Your task to perform on an android device: Search for hotels in Paris Image 0: 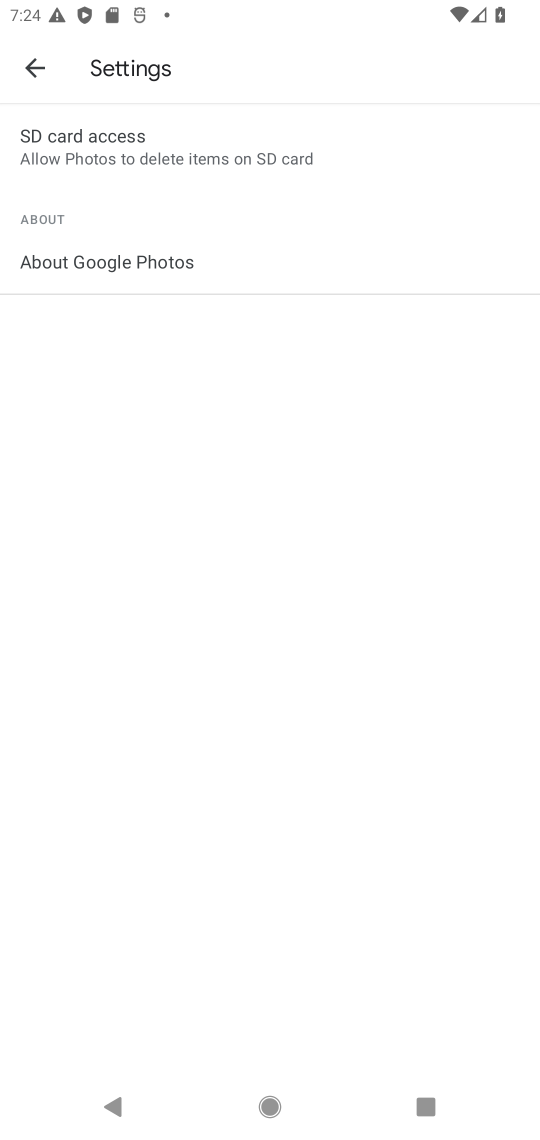
Step 0: press home button
Your task to perform on an android device: Search for hotels in Paris Image 1: 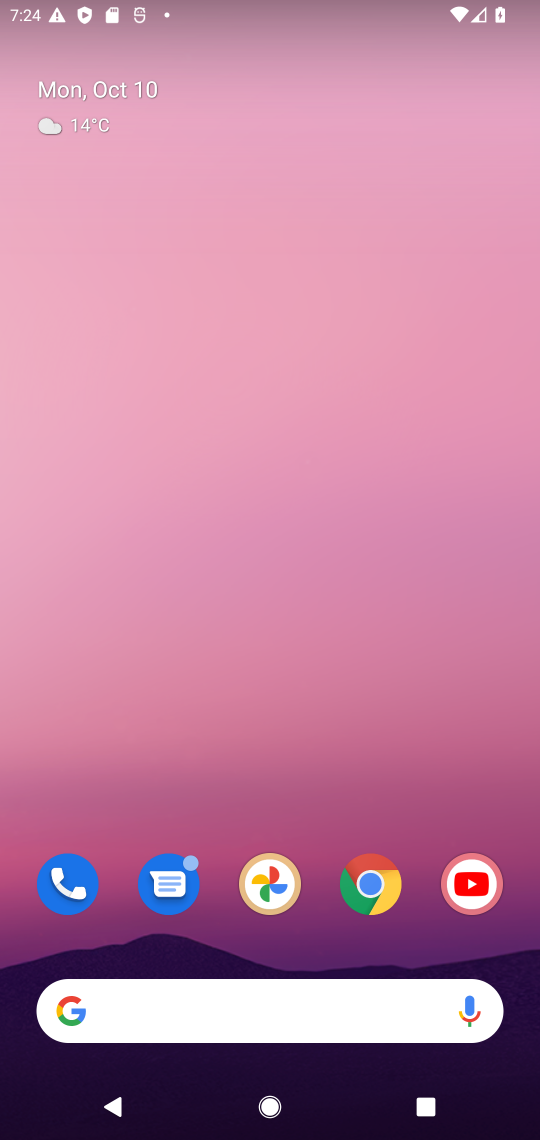
Step 1: click (261, 1006)
Your task to perform on an android device: Search for hotels in Paris Image 2: 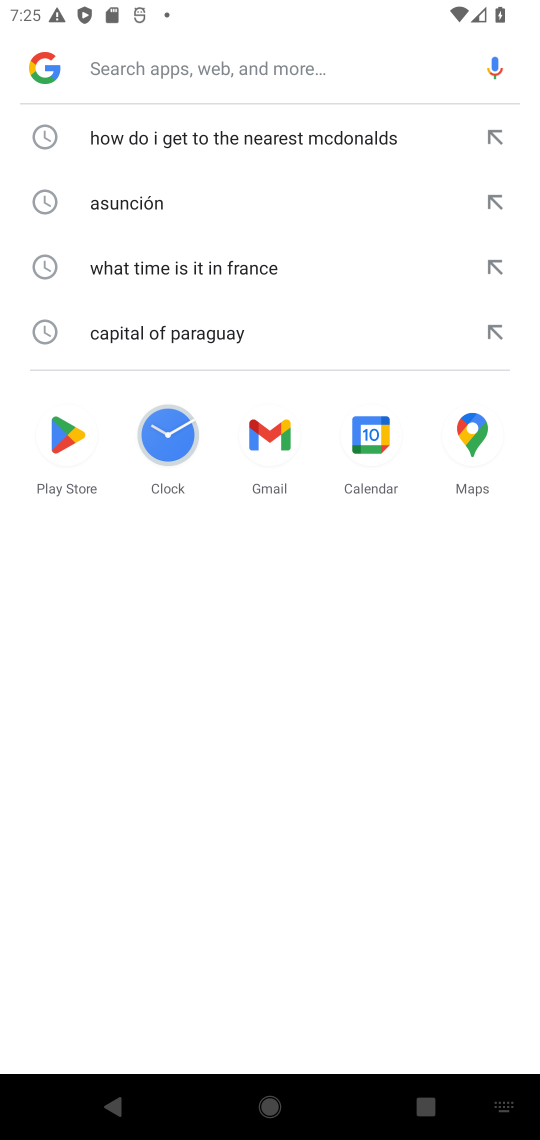
Step 2: type "hotels in paris"
Your task to perform on an android device: Search for hotels in Paris Image 3: 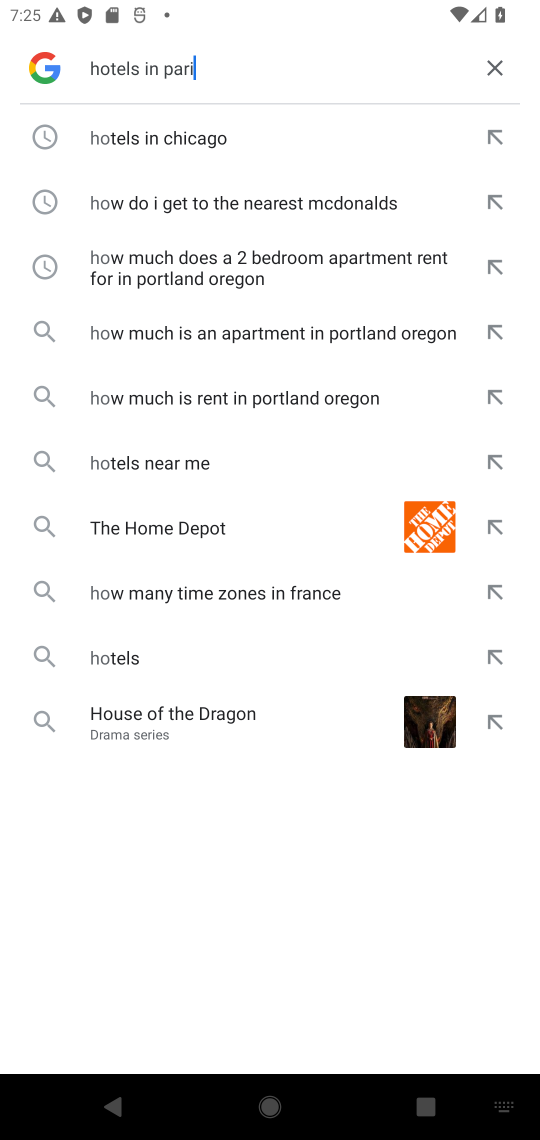
Step 3: type ""
Your task to perform on an android device: Search for hotels in Paris Image 4: 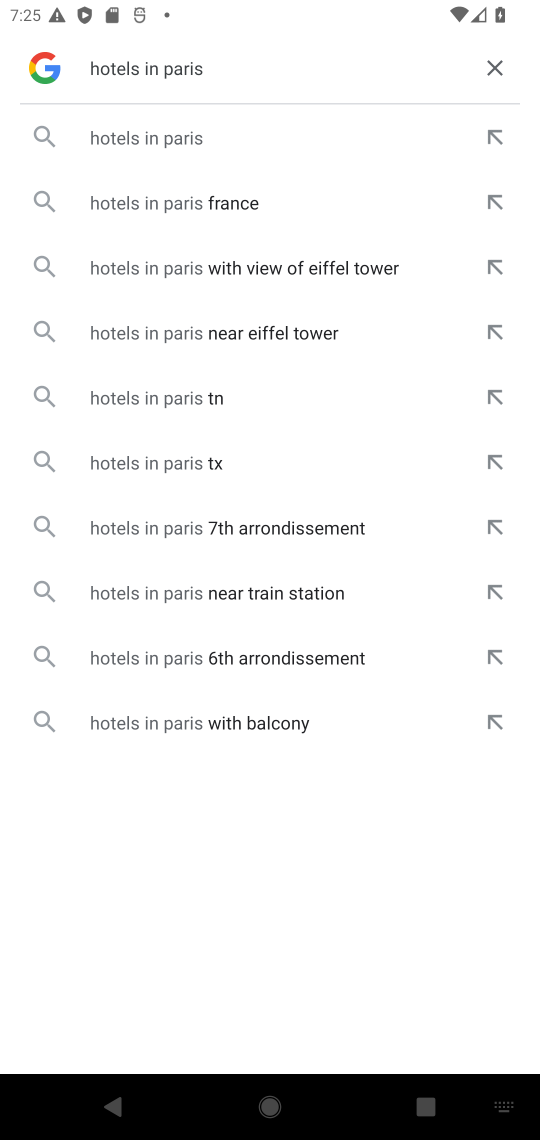
Step 4: click (169, 145)
Your task to perform on an android device: Search for hotels in Paris Image 5: 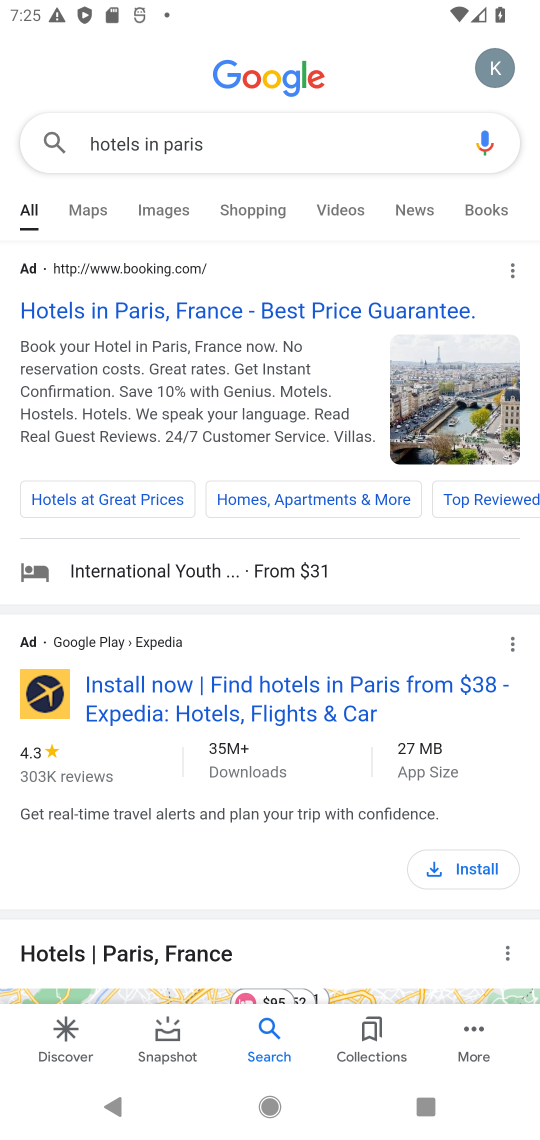
Step 5: drag from (233, 935) to (240, 874)
Your task to perform on an android device: Search for hotels in Paris Image 6: 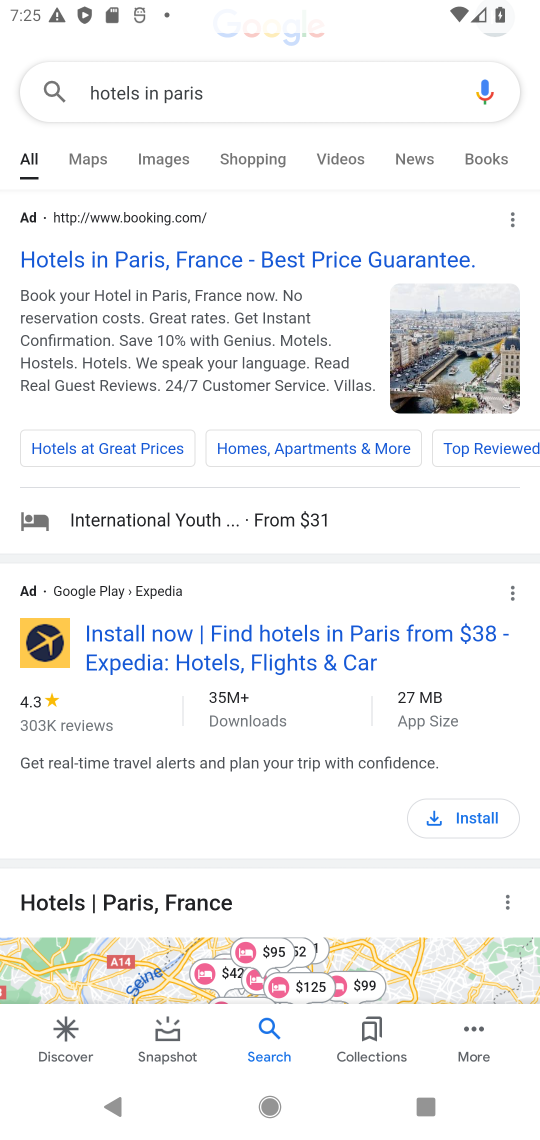
Step 6: click (180, 264)
Your task to perform on an android device: Search for hotels in Paris Image 7: 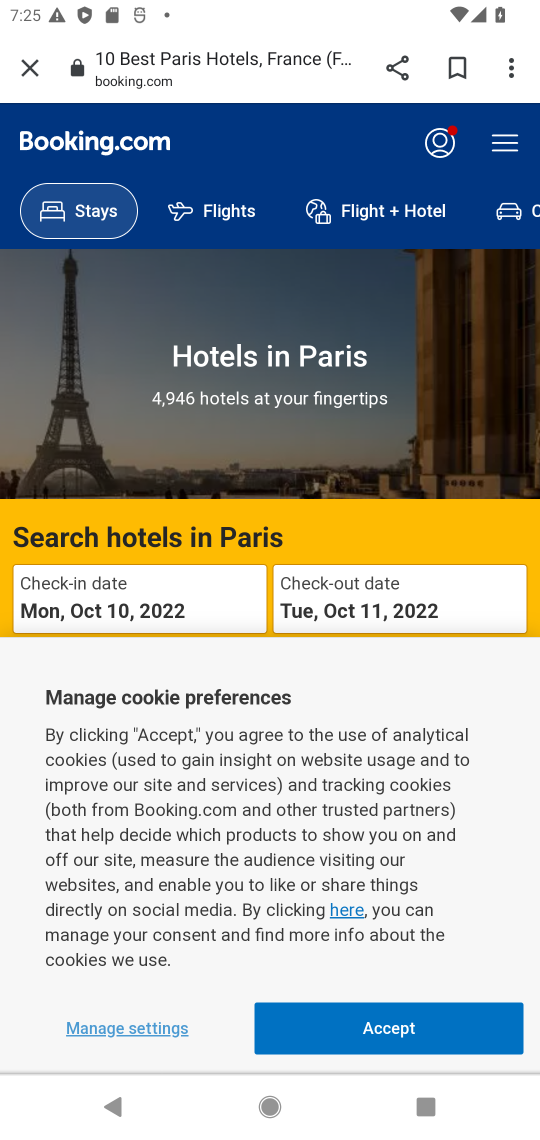
Step 7: click (298, 1038)
Your task to perform on an android device: Search for hotels in Paris Image 8: 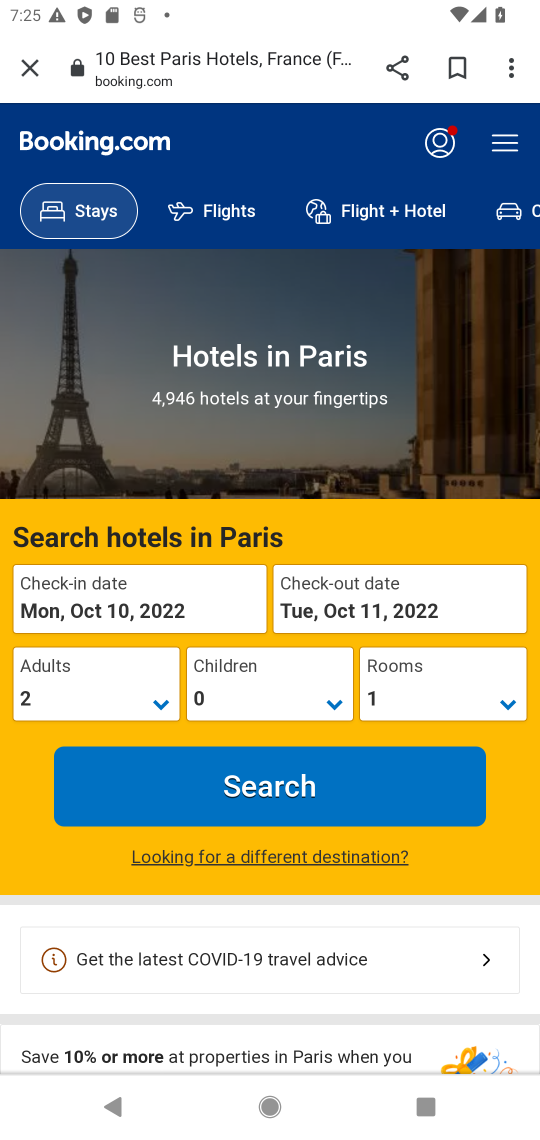
Step 8: drag from (319, 920) to (351, 125)
Your task to perform on an android device: Search for hotels in Paris Image 9: 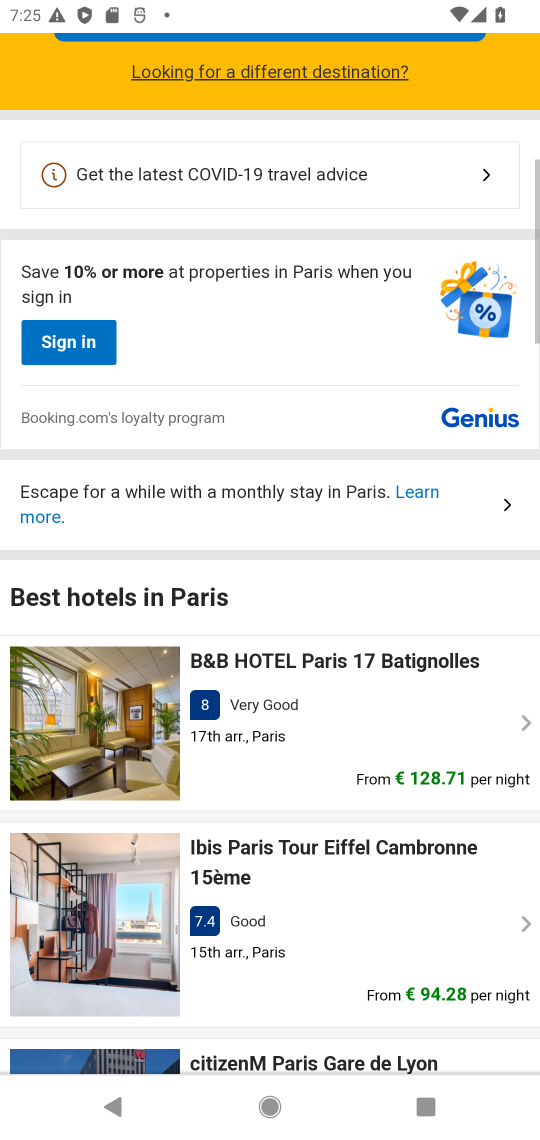
Step 9: drag from (356, 557) to (408, 126)
Your task to perform on an android device: Search for hotels in Paris Image 10: 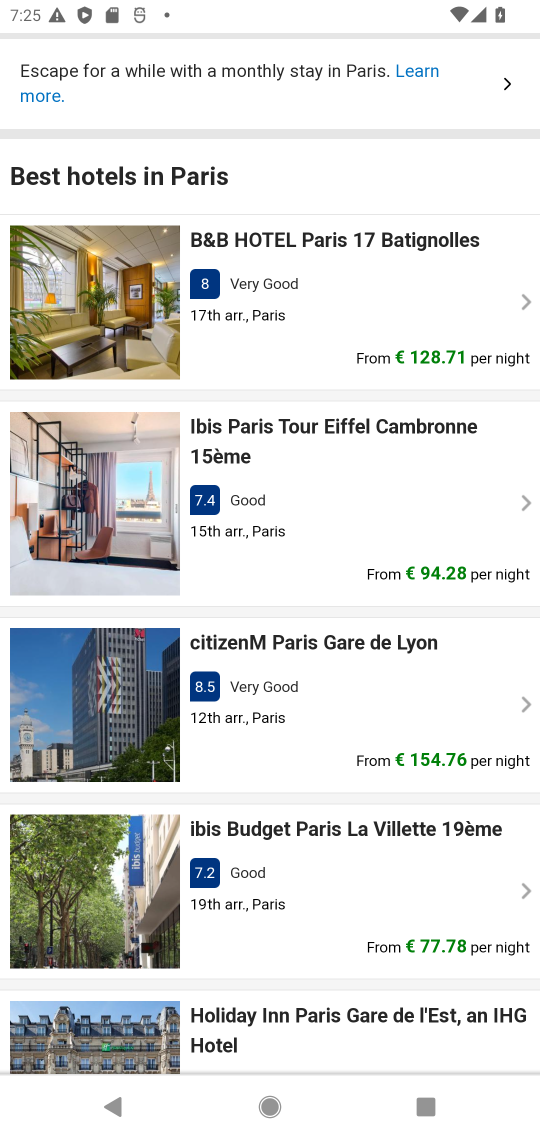
Step 10: drag from (408, 858) to (404, 178)
Your task to perform on an android device: Search for hotels in Paris Image 11: 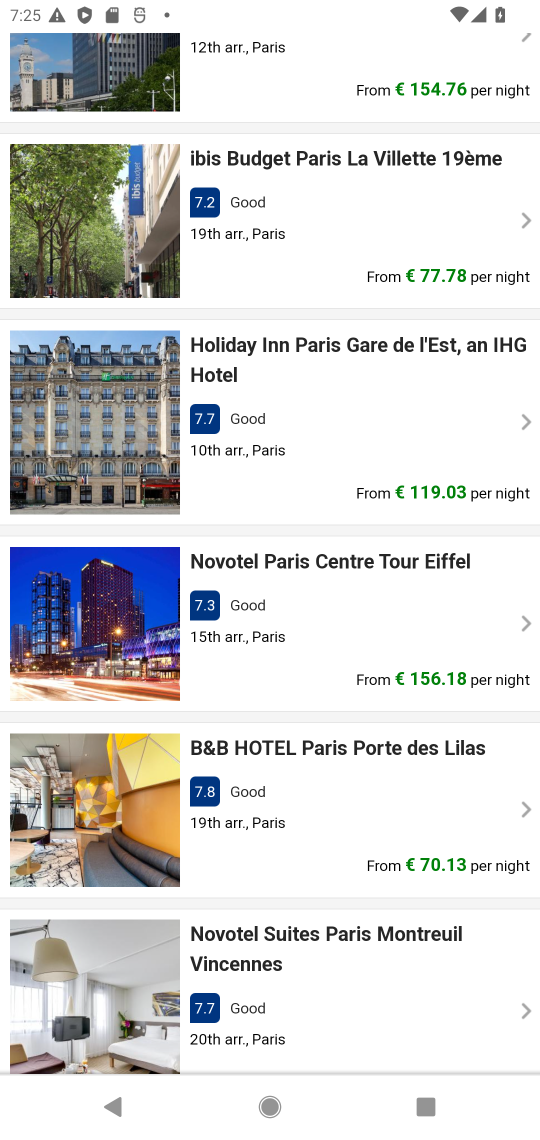
Step 11: drag from (307, 735) to (284, 196)
Your task to perform on an android device: Search for hotels in Paris Image 12: 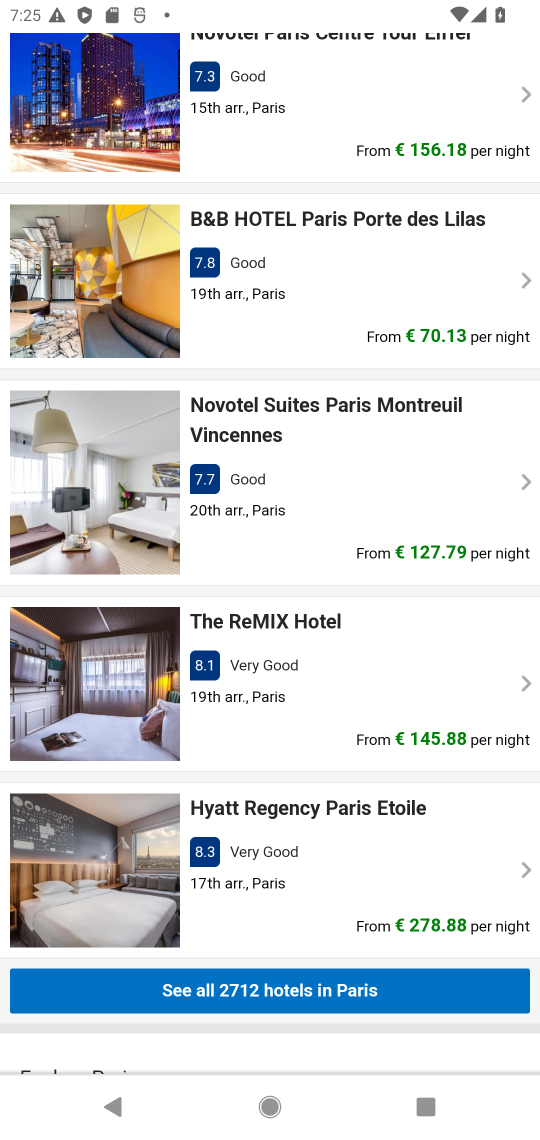
Step 12: drag from (318, 798) to (325, 250)
Your task to perform on an android device: Search for hotels in Paris Image 13: 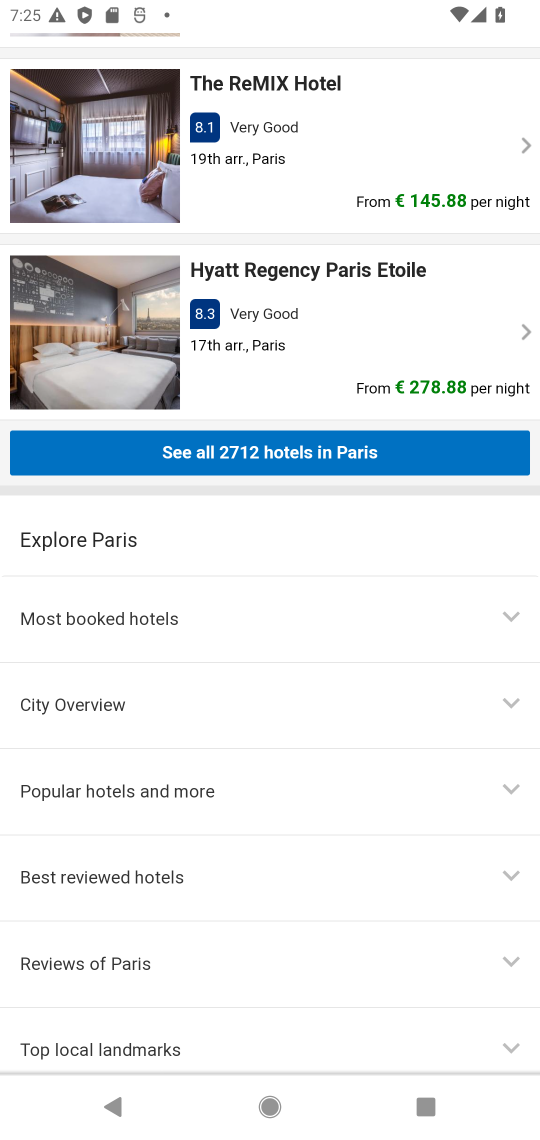
Step 13: drag from (393, 748) to (412, 193)
Your task to perform on an android device: Search for hotels in Paris Image 14: 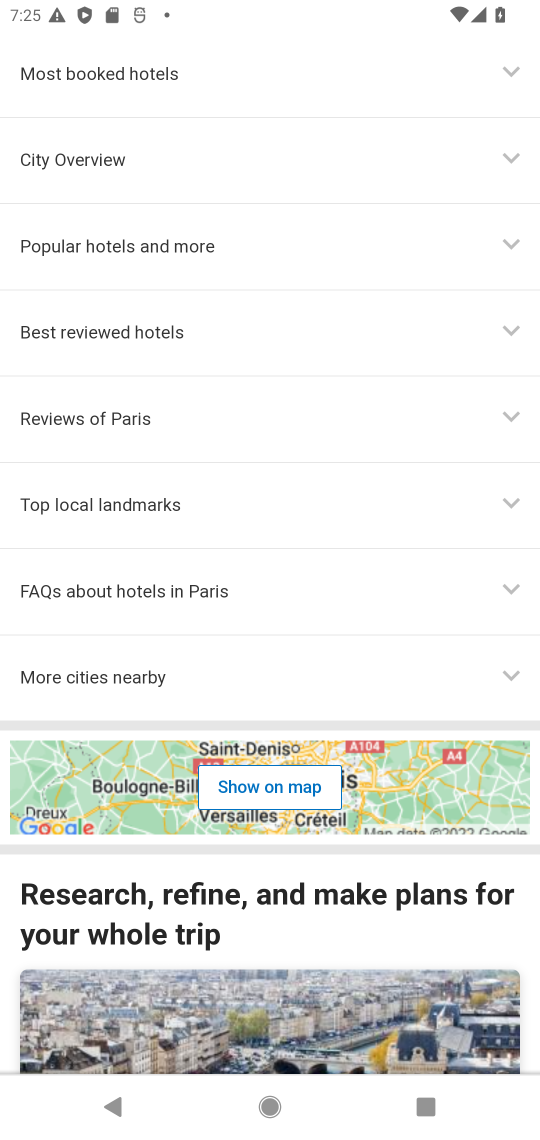
Step 14: drag from (327, 776) to (295, 123)
Your task to perform on an android device: Search for hotels in Paris Image 15: 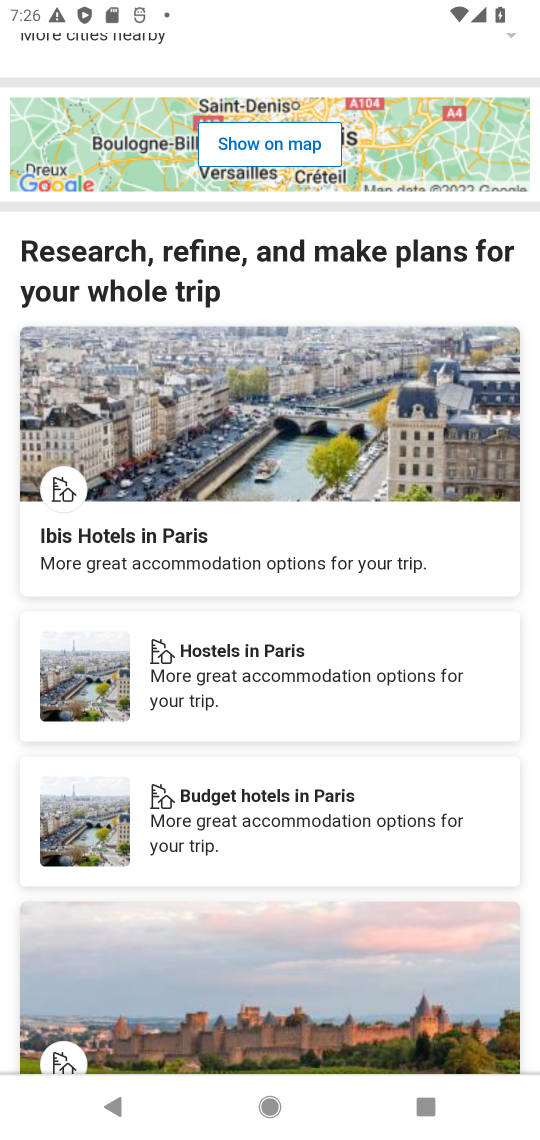
Step 15: drag from (362, 658) to (342, 164)
Your task to perform on an android device: Search for hotels in Paris Image 16: 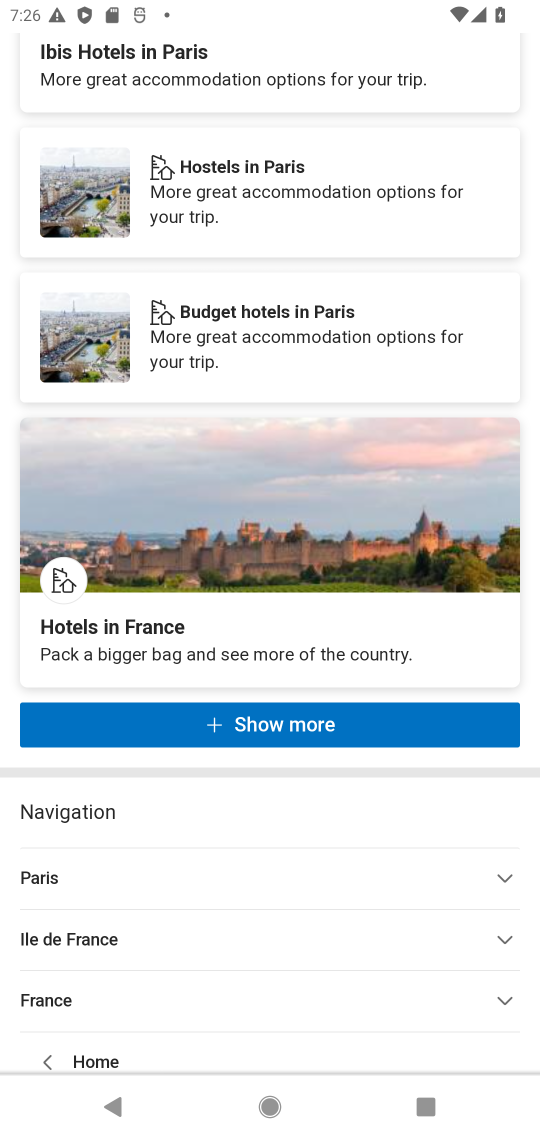
Step 16: click (283, 214)
Your task to perform on an android device: Search for hotels in Paris Image 17: 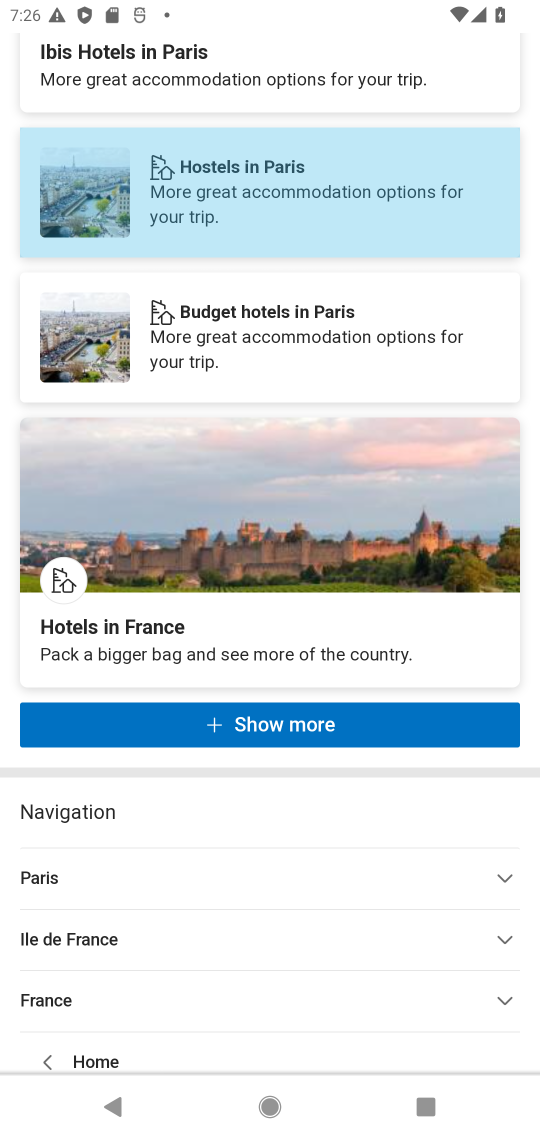
Step 17: drag from (321, 711) to (297, 180)
Your task to perform on an android device: Search for hotels in Paris Image 18: 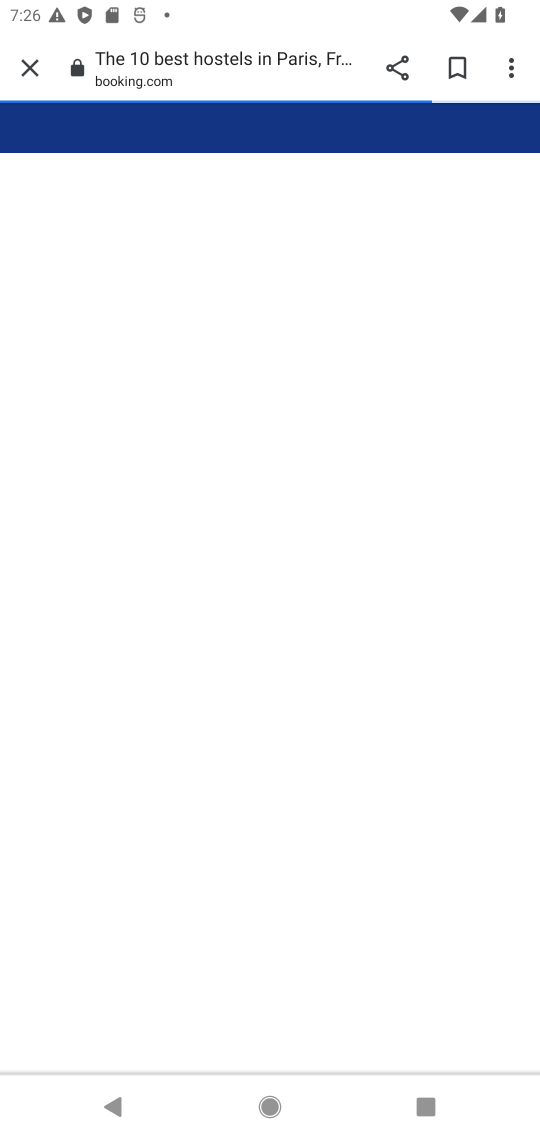
Step 18: drag from (296, 171) to (295, 611)
Your task to perform on an android device: Search for hotels in Paris Image 19: 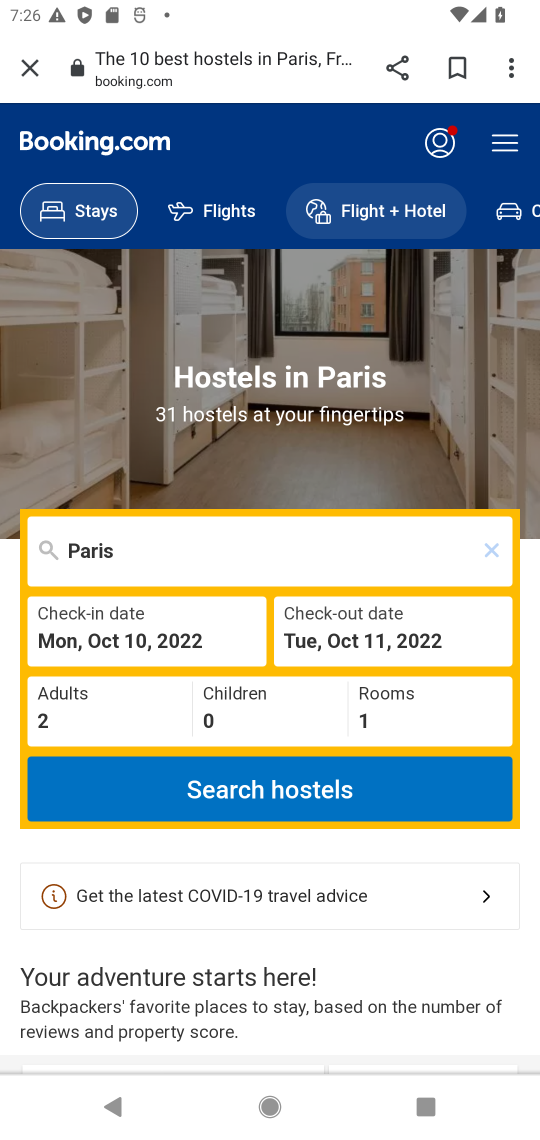
Step 19: press back button
Your task to perform on an android device: Search for hotels in Paris Image 20: 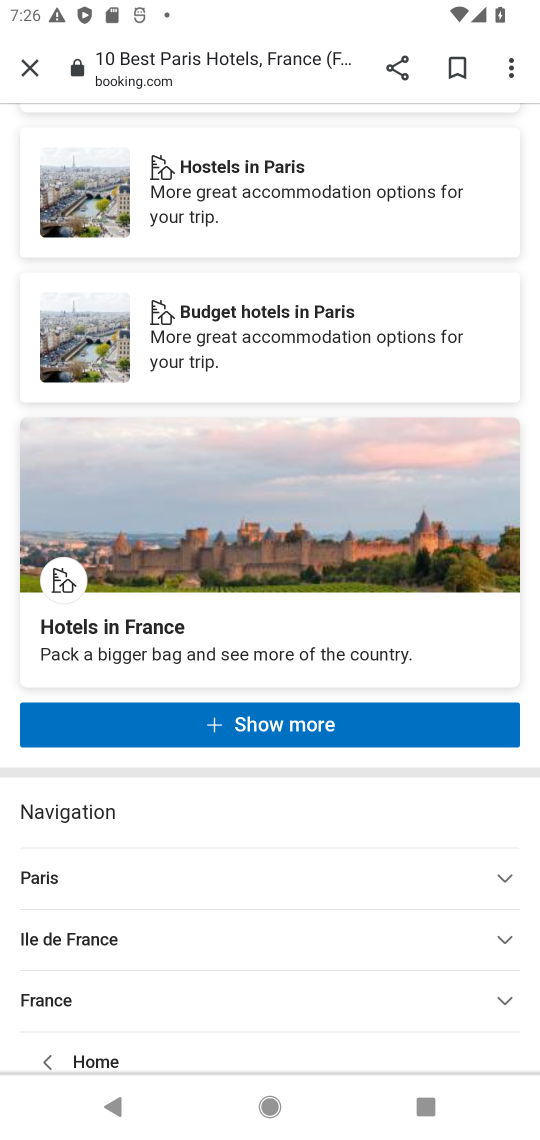
Step 20: press back button
Your task to perform on an android device: Search for hotels in Paris Image 21: 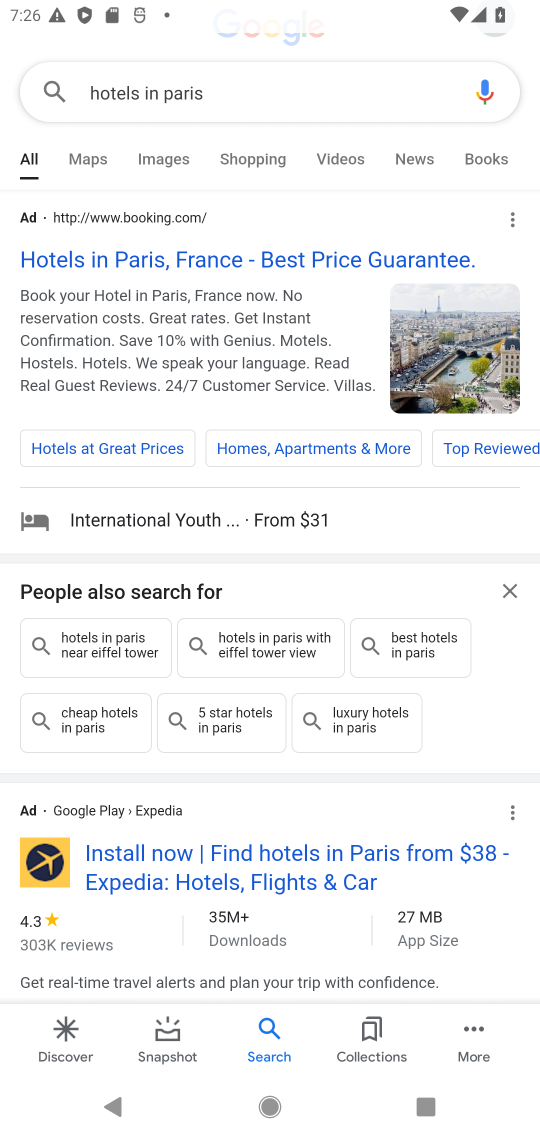
Step 21: click (242, 263)
Your task to perform on an android device: Search for hotels in Paris Image 22: 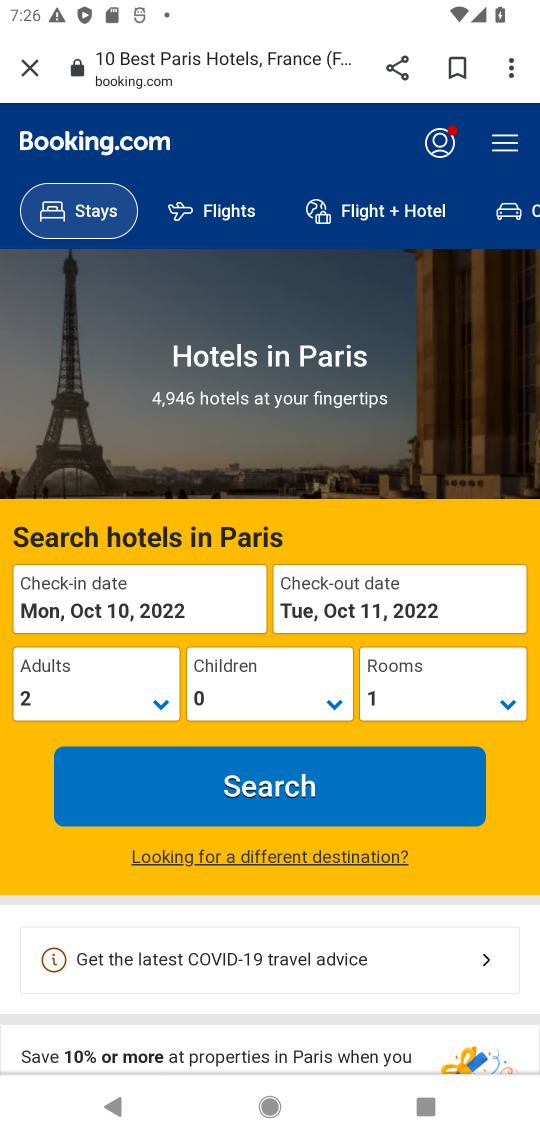
Step 22: drag from (294, 728) to (318, 224)
Your task to perform on an android device: Search for hotels in Paris Image 23: 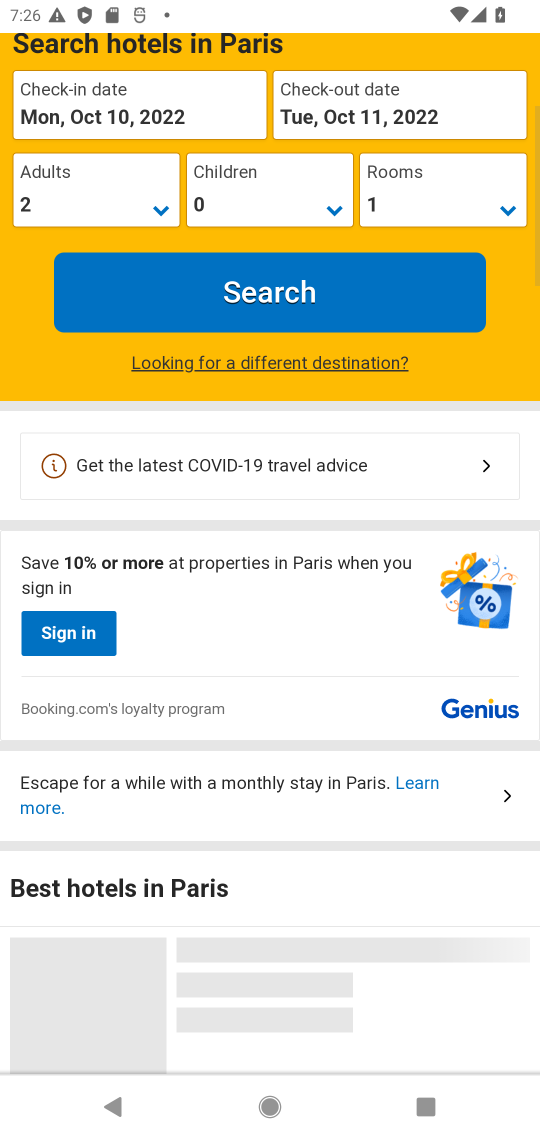
Step 23: drag from (359, 713) to (304, 157)
Your task to perform on an android device: Search for hotels in Paris Image 24: 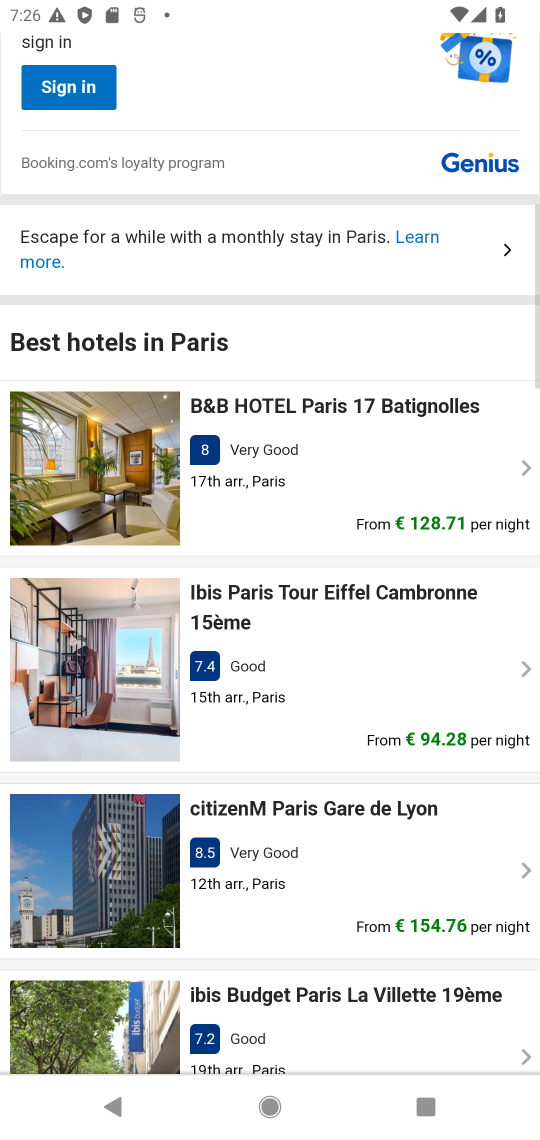
Step 24: drag from (308, 849) to (323, 115)
Your task to perform on an android device: Search for hotels in Paris Image 25: 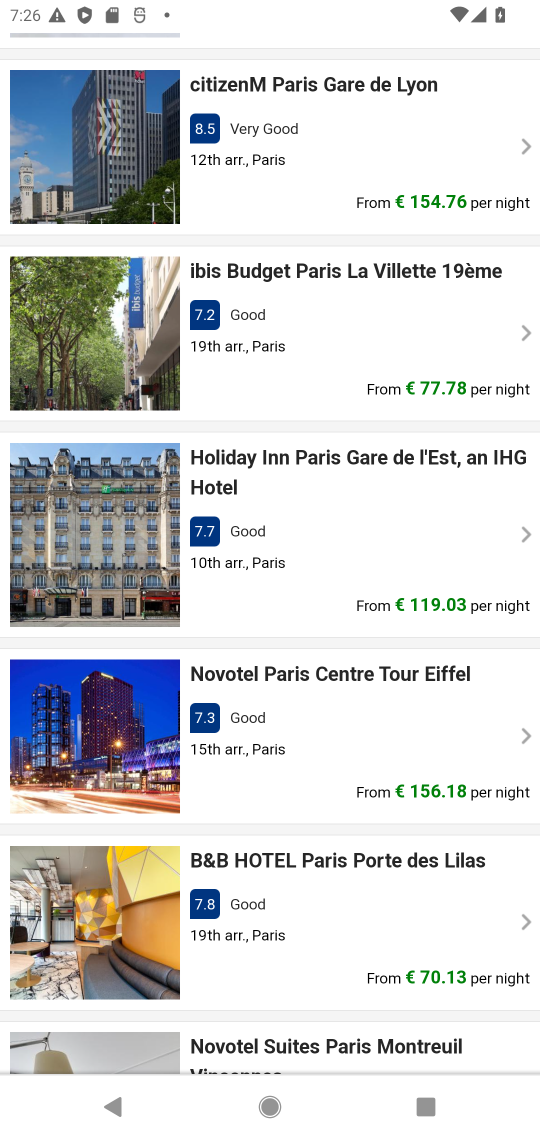
Step 25: drag from (349, 1026) to (346, 66)
Your task to perform on an android device: Search for hotels in Paris Image 26: 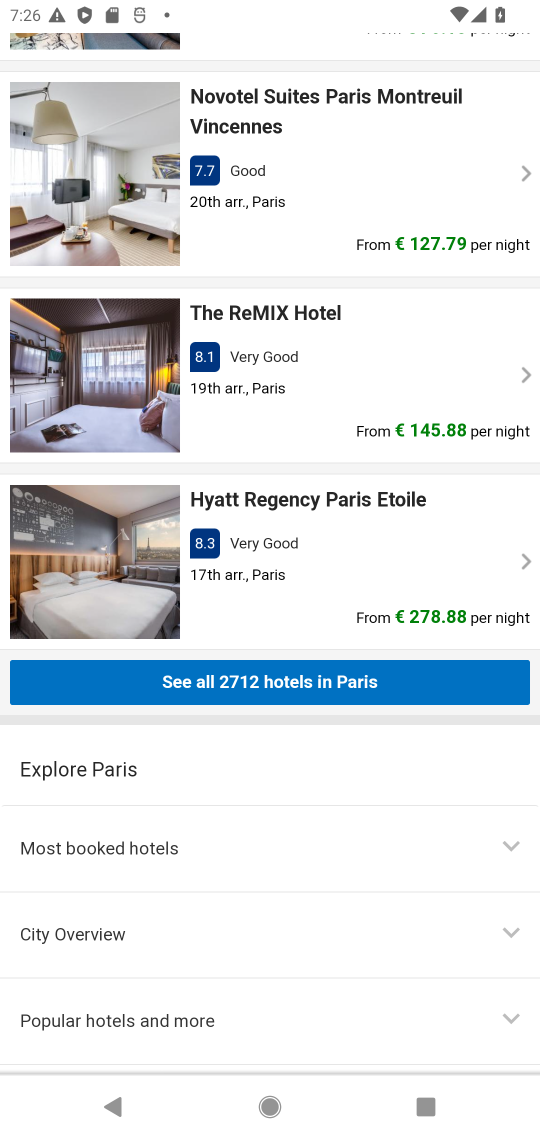
Step 26: drag from (385, 850) to (404, 98)
Your task to perform on an android device: Search for hotels in Paris Image 27: 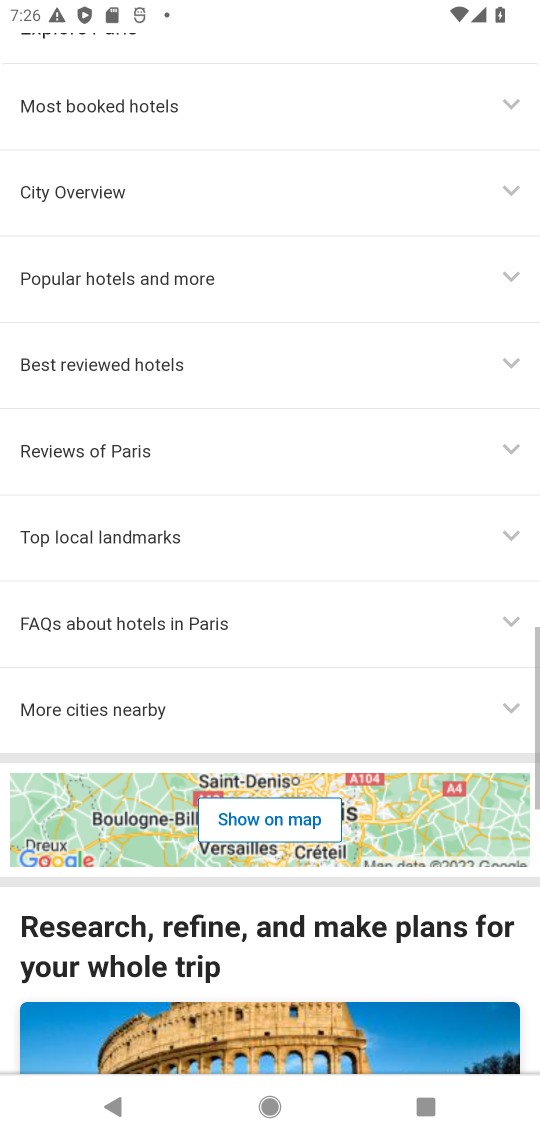
Step 27: drag from (423, 882) to (375, 110)
Your task to perform on an android device: Search for hotels in Paris Image 28: 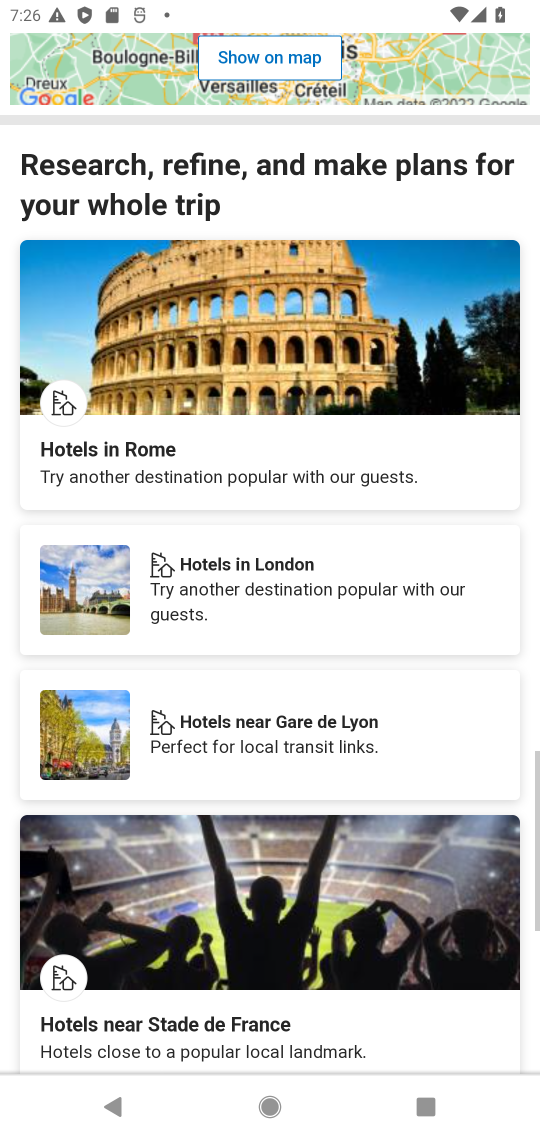
Step 28: drag from (346, 920) to (313, 110)
Your task to perform on an android device: Search for hotels in Paris Image 29: 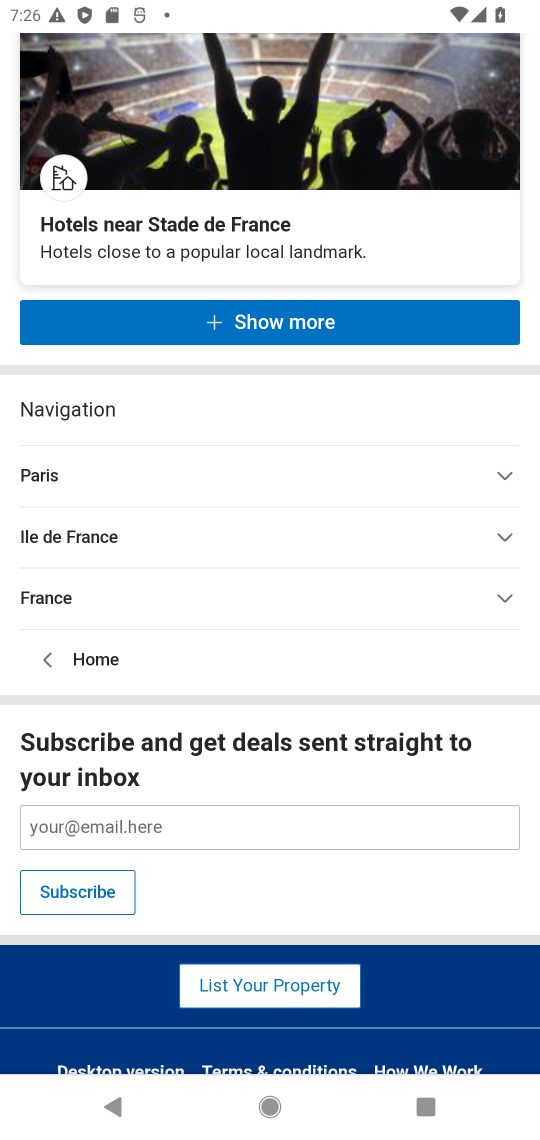
Step 29: drag from (361, 794) to (354, 85)
Your task to perform on an android device: Search for hotels in Paris Image 30: 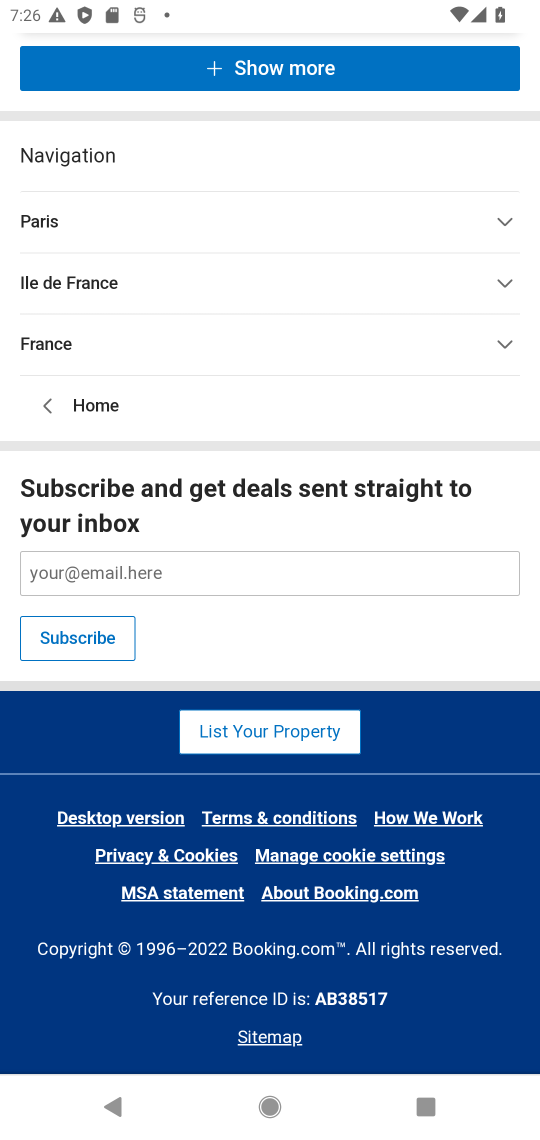
Step 30: drag from (319, 757) to (244, 70)
Your task to perform on an android device: Search for hotels in Paris Image 31: 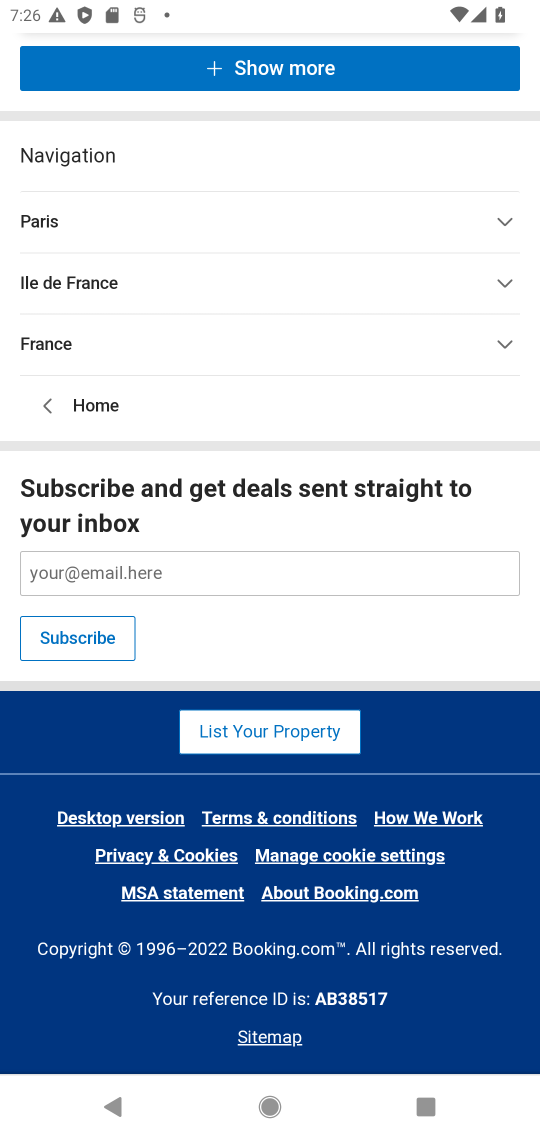
Step 31: drag from (297, 829) to (322, 342)
Your task to perform on an android device: Search for hotels in Paris Image 32: 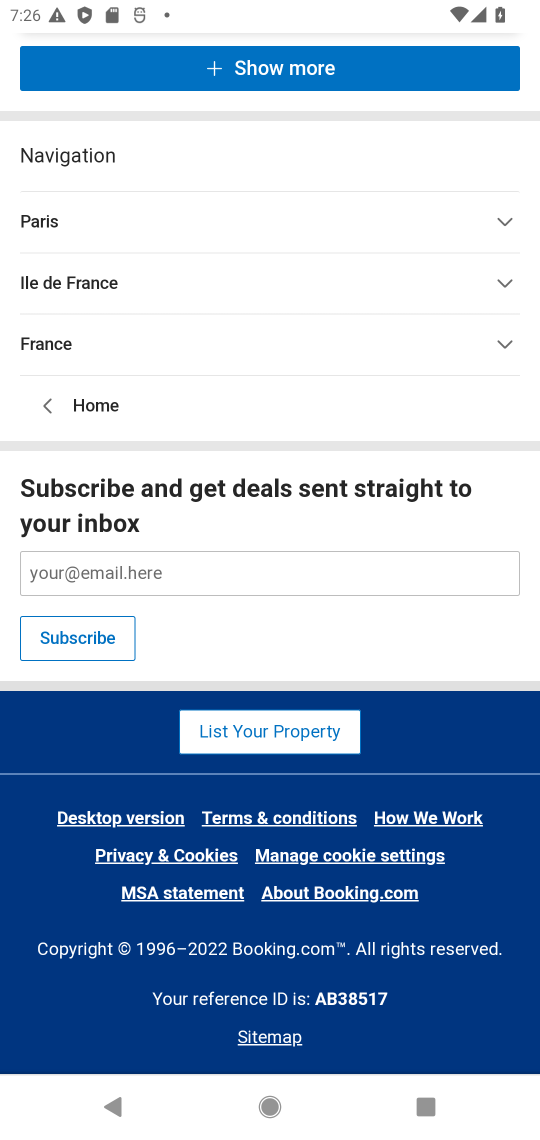
Step 32: drag from (445, 755) to (429, 374)
Your task to perform on an android device: Search for hotels in Paris Image 33: 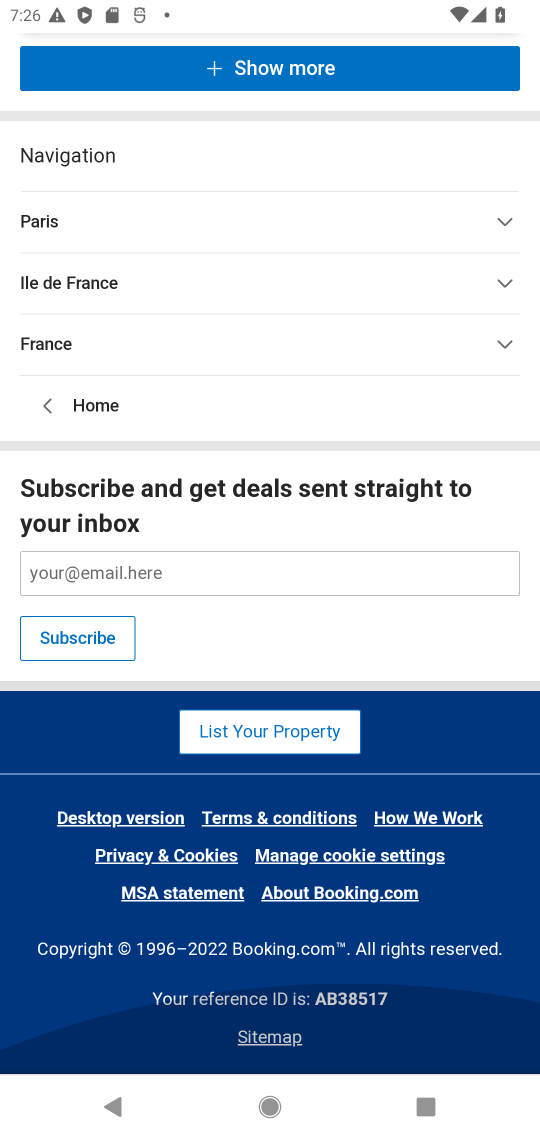
Step 33: drag from (362, 257) to (359, 744)
Your task to perform on an android device: Search for hotels in Paris Image 34: 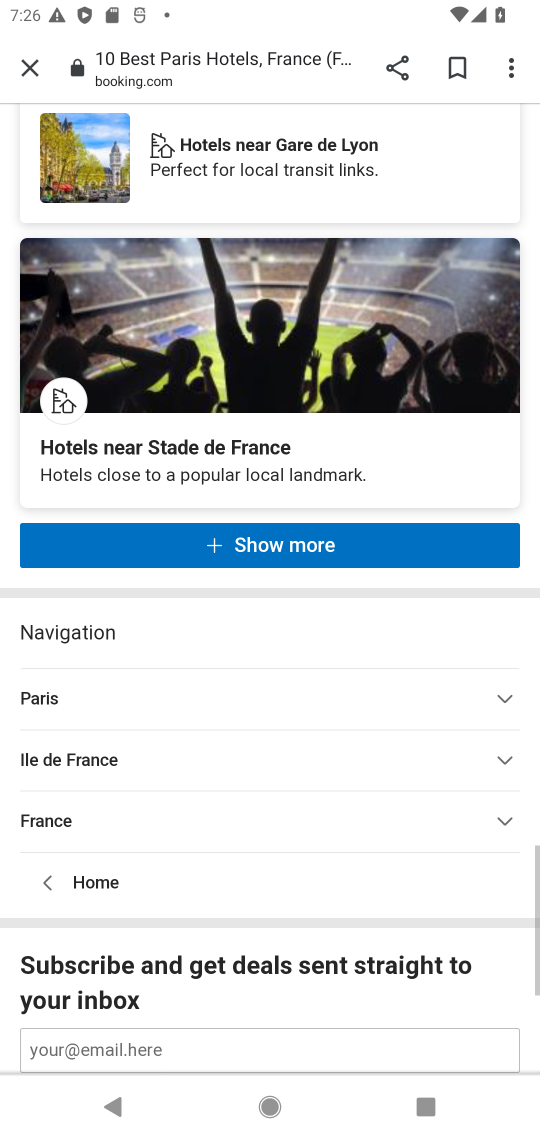
Step 34: drag from (350, 246) to (389, 789)
Your task to perform on an android device: Search for hotels in Paris Image 35: 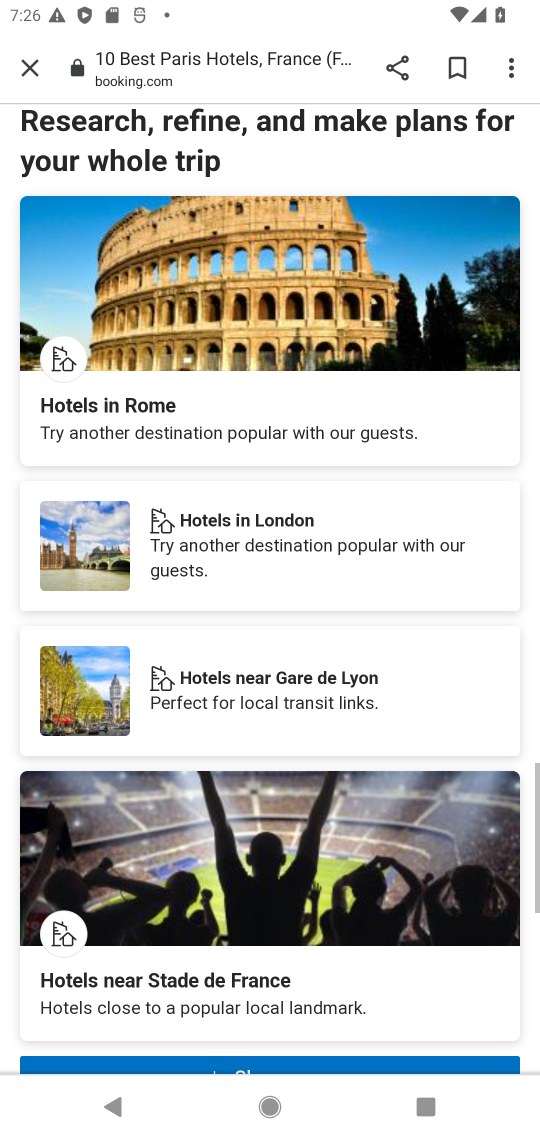
Step 35: drag from (383, 286) to (374, 835)
Your task to perform on an android device: Search for hotels in Paris Image 36: 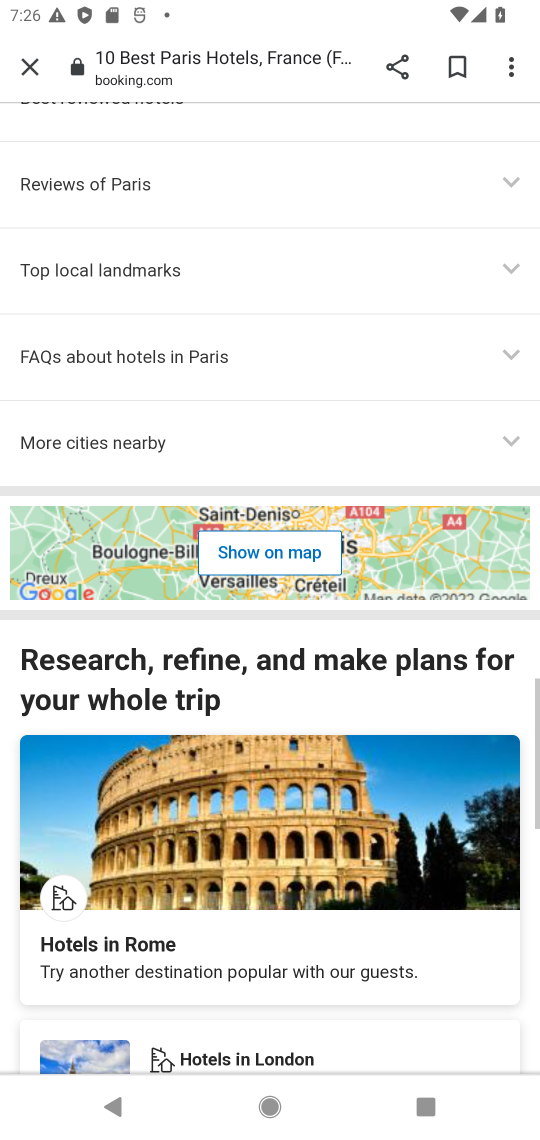
Step 36: drag from (326, 415) to (372, 888)
Your task to perform on an android device: Search for hotels in Paris Image 37: 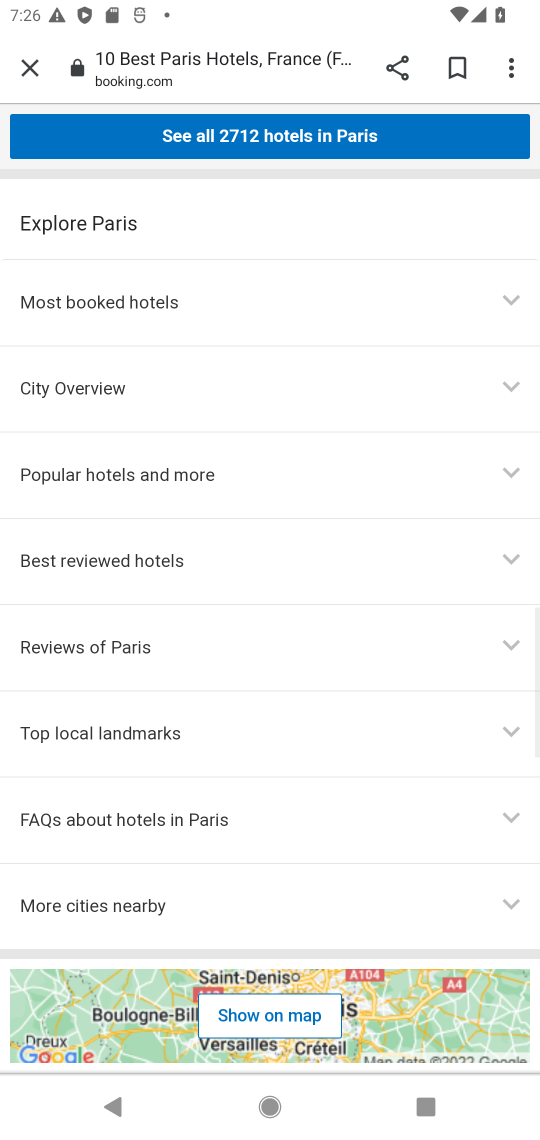
Step 37: drag from (388, 424) to (367, 942)
Your task to perform on an android device: Search for hotels in Paris Image 38: 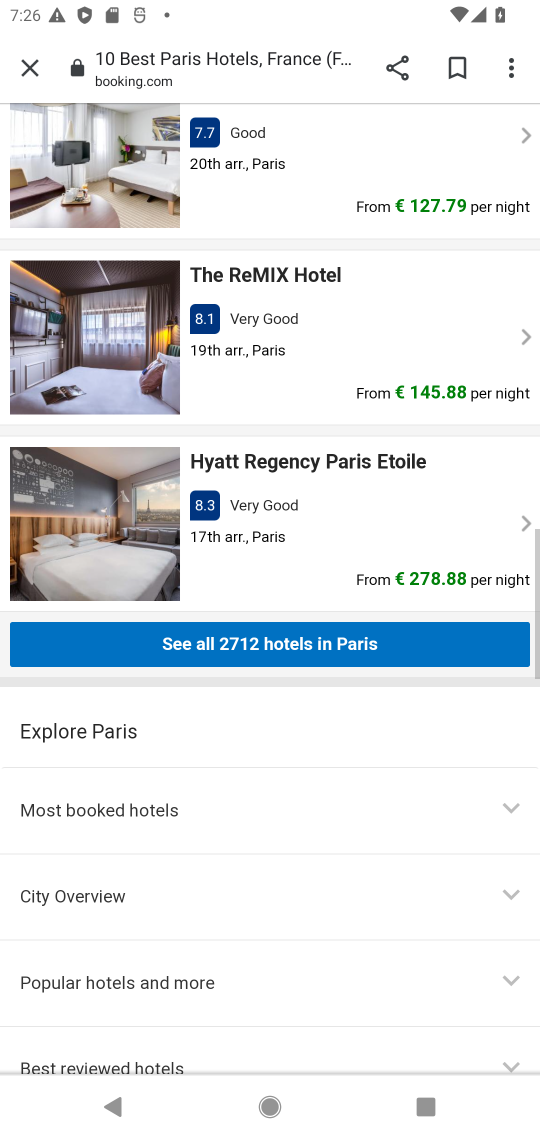
Step 38: drag from (415, 454) to (400, 797)
Your task to perform on an android device: Search for hotels in Paris Image 39: 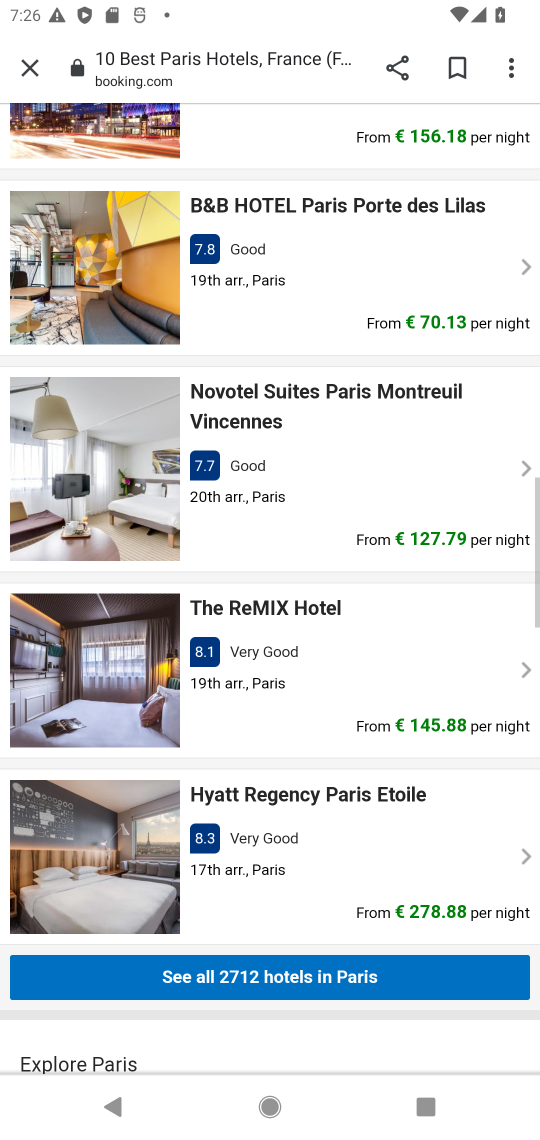
Step 39: drag from (385, 363) to (345, 848)
Your task to perform on an android device: Search for hotels in Paris Image 40: 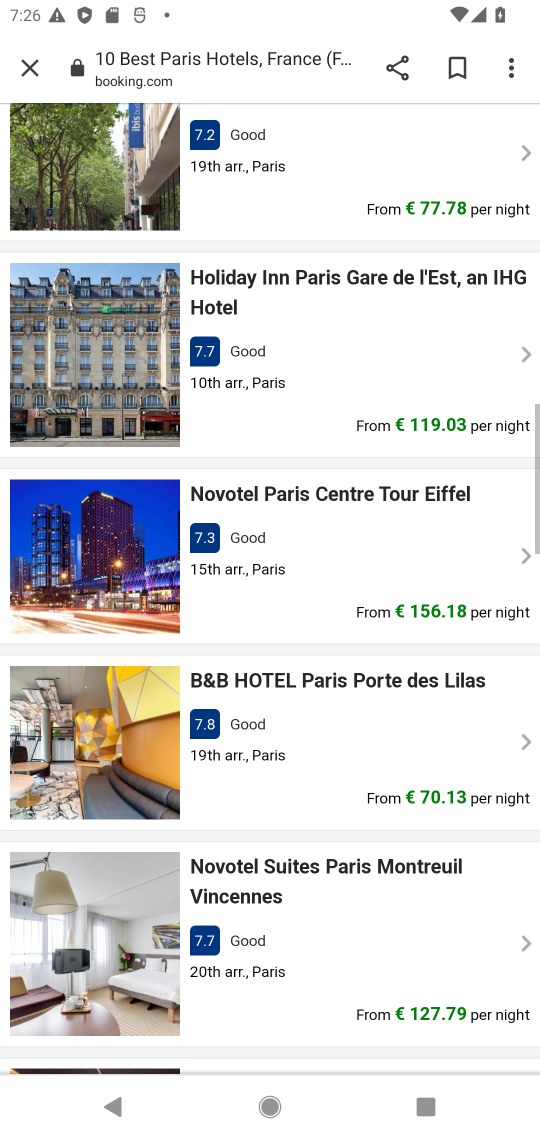
Step 40: drag from (300, 466) to (336, 909)
Your task to perform on an android device: Search for hotels in Paris Image 41: 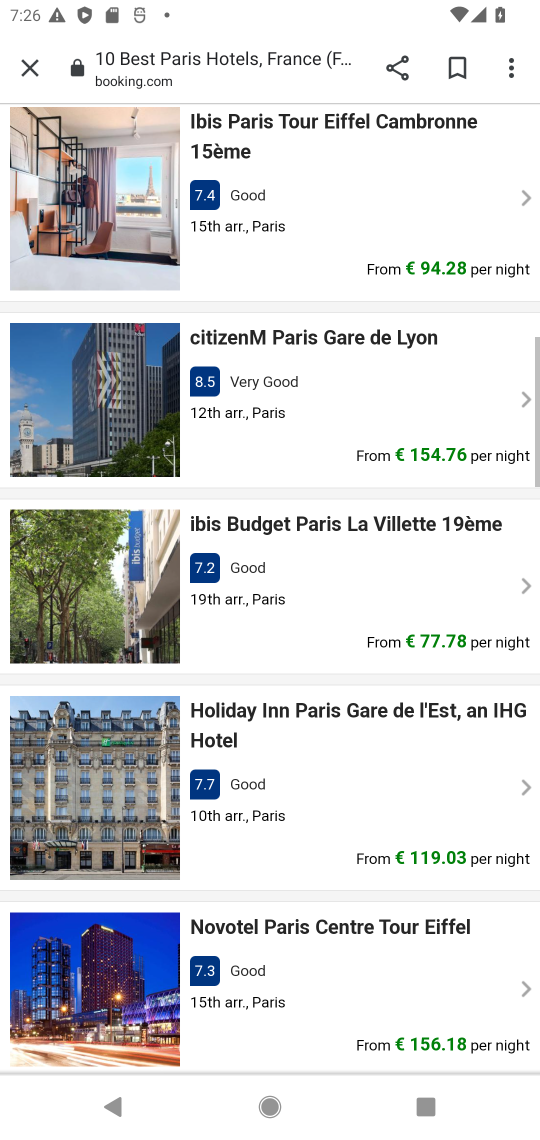
Step 41: drag from (388, 581) to (387, 926)
Your task to perform on an android device: Search for hotels in Paris Image 42: 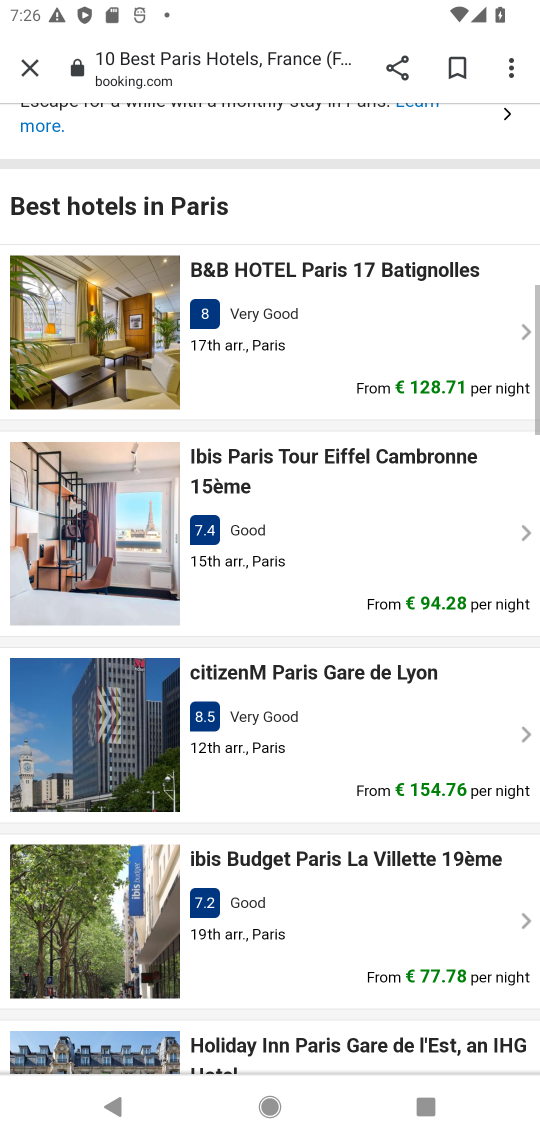
Step 42: drag from (350, 380) to (366, 875)
Your task to perform on an android device: Search for hotels in Paris Image 43: 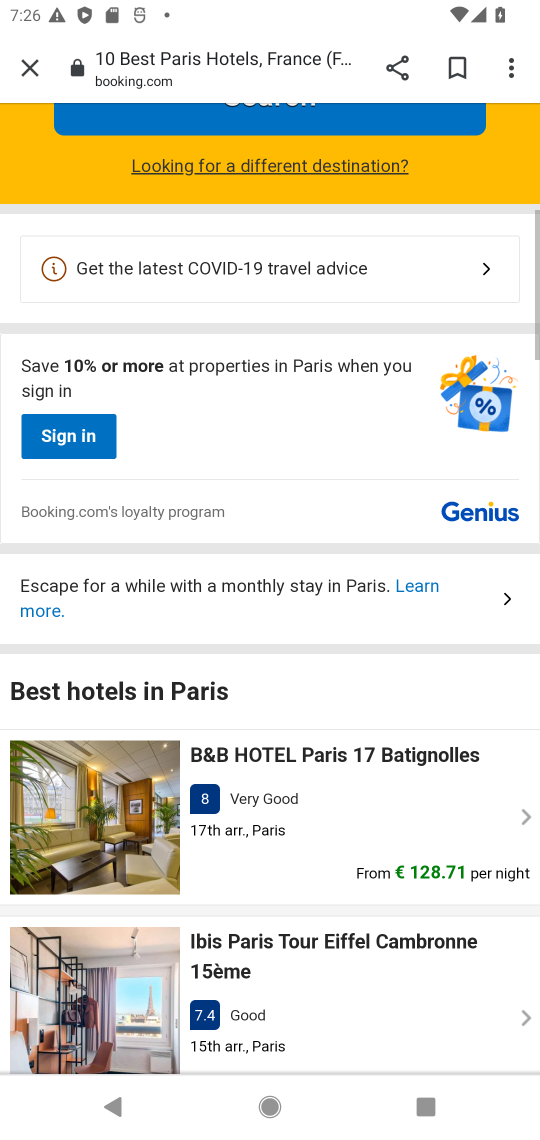
Step 43: drag from (382, 425) to (391, 914)
Your task to perform on an android device: Search for hotels in Paris Image 44: 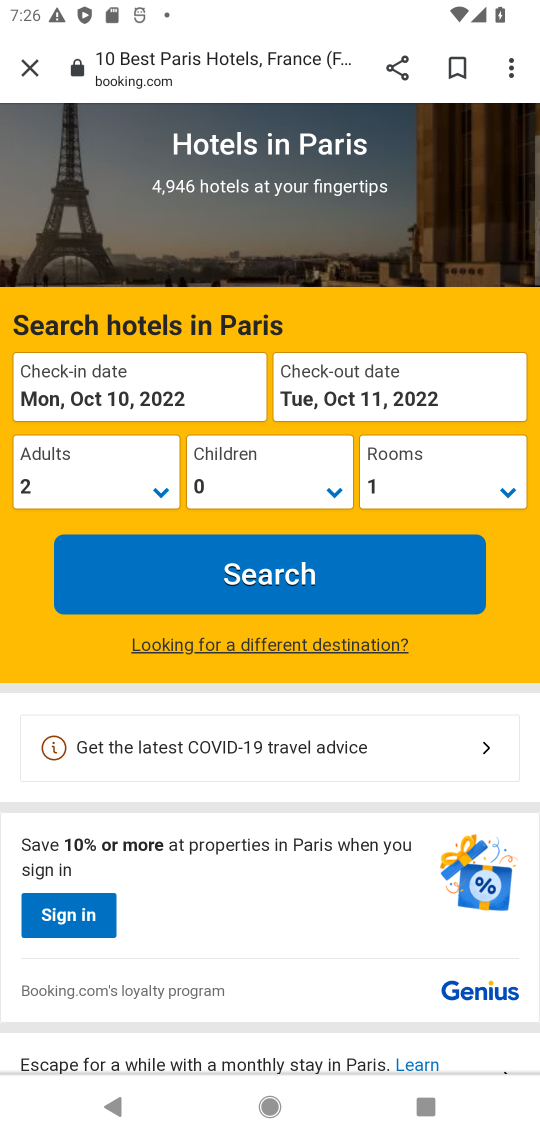
Step 44: drag from (404, 327) to (468, 760)
Your task to perform on an android device: Search for hotels in Paris Image 45: 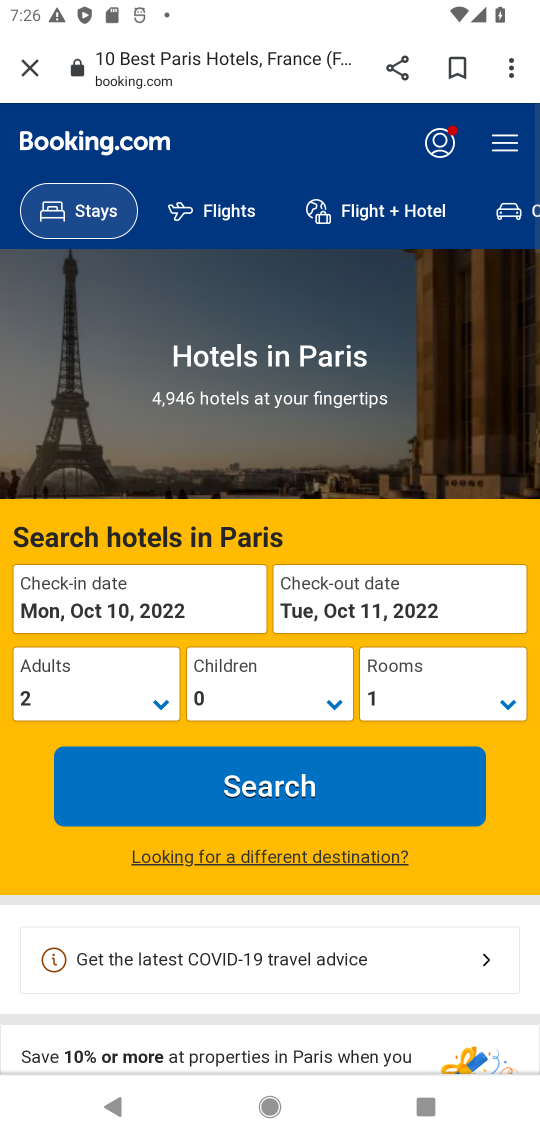
Step 45: drag from (309, 302) to (264, 764)
Your task to perform on an android device: Search for hotels in Paris Image 46: 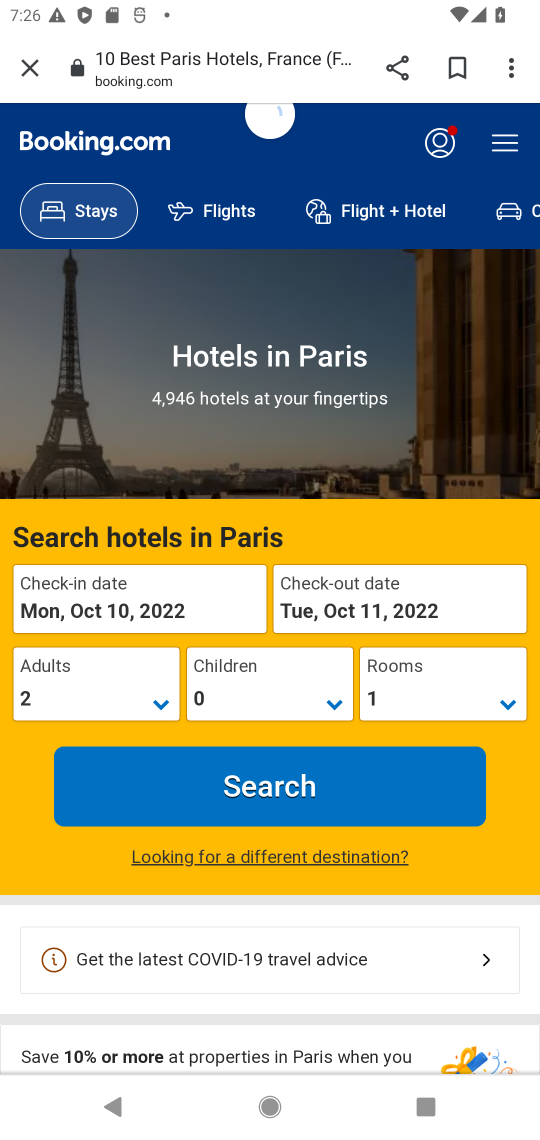
Step 46: drag from (290, 380) to (296, 743)
Your task to perform on an android device: Search for hotels in Paris Image 47: 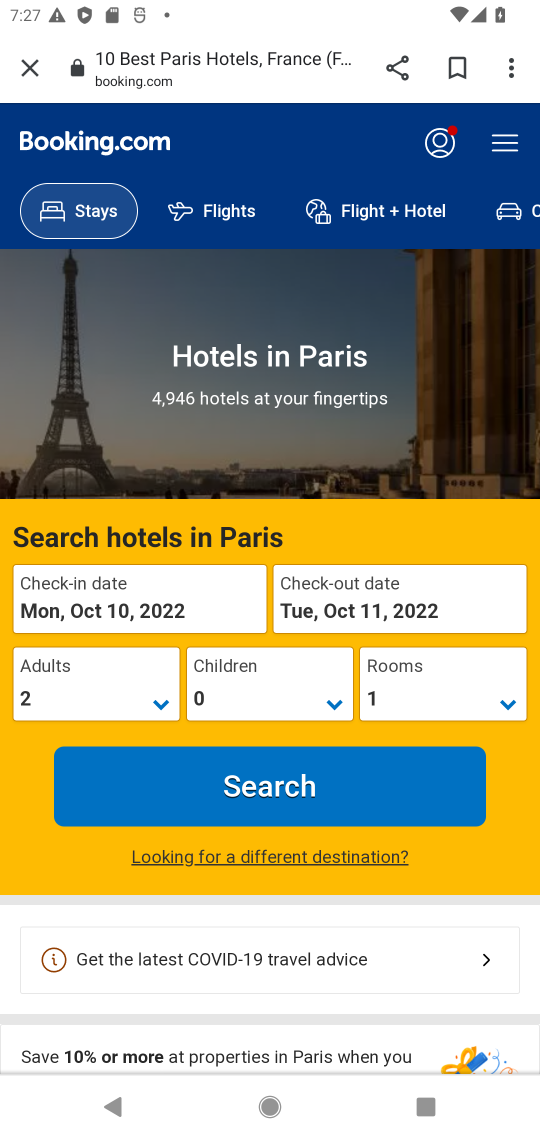
Step 47: drag from (294, 519) to (288, 695)
Your task to perform on an android device: Search for hotels in Paris Image 48: 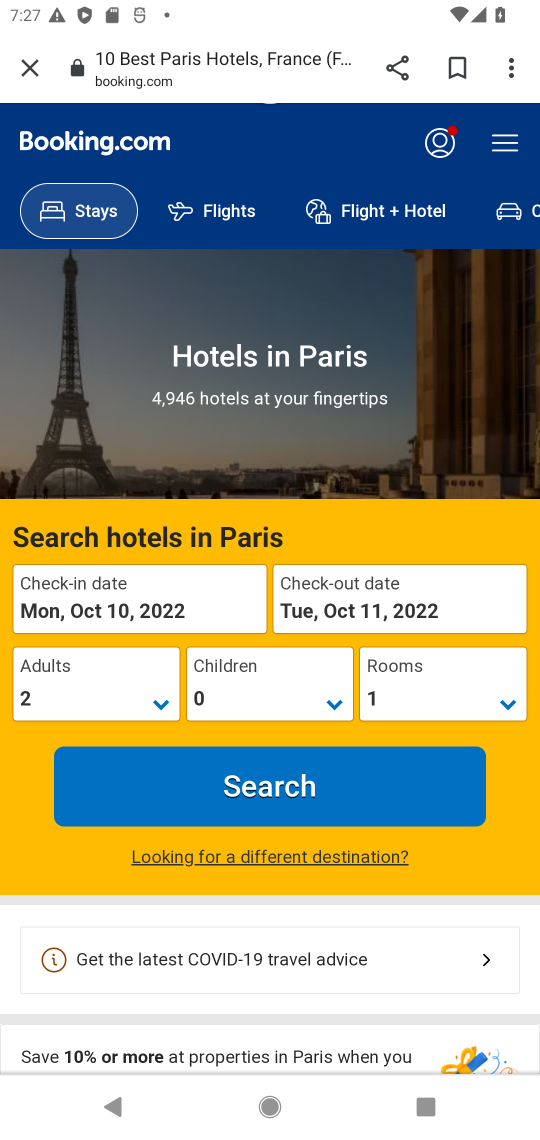
Step 48: drag from (337, 768) to (327, 282)
Your task to perform on an android device: Search for hotels in Paris Image 49: 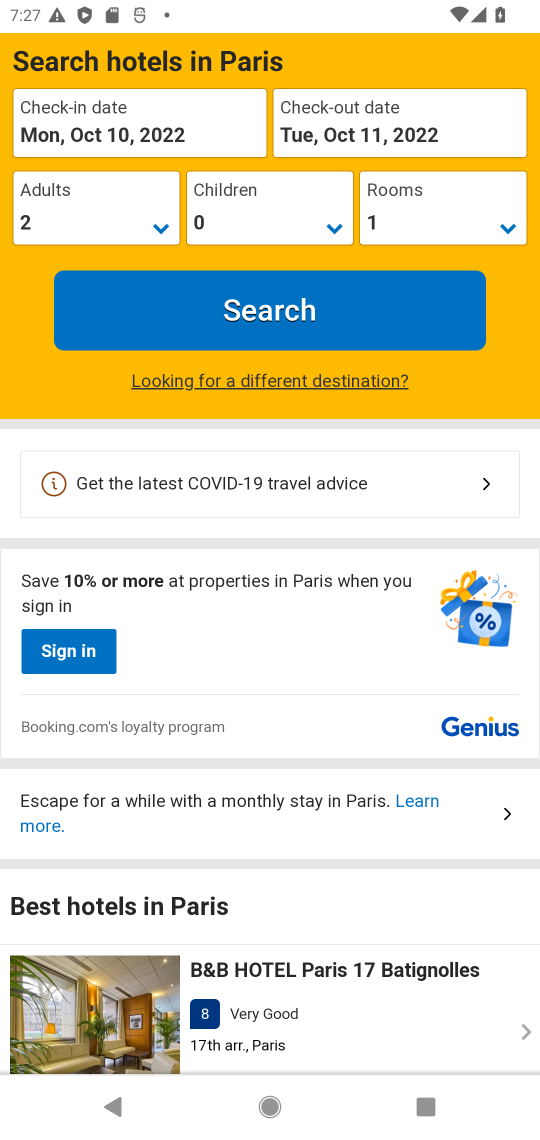
Step 49: drag from (159, 245) to (190, 619)
Your task to perform on an android device: Search for hotels in Paris Image 50: 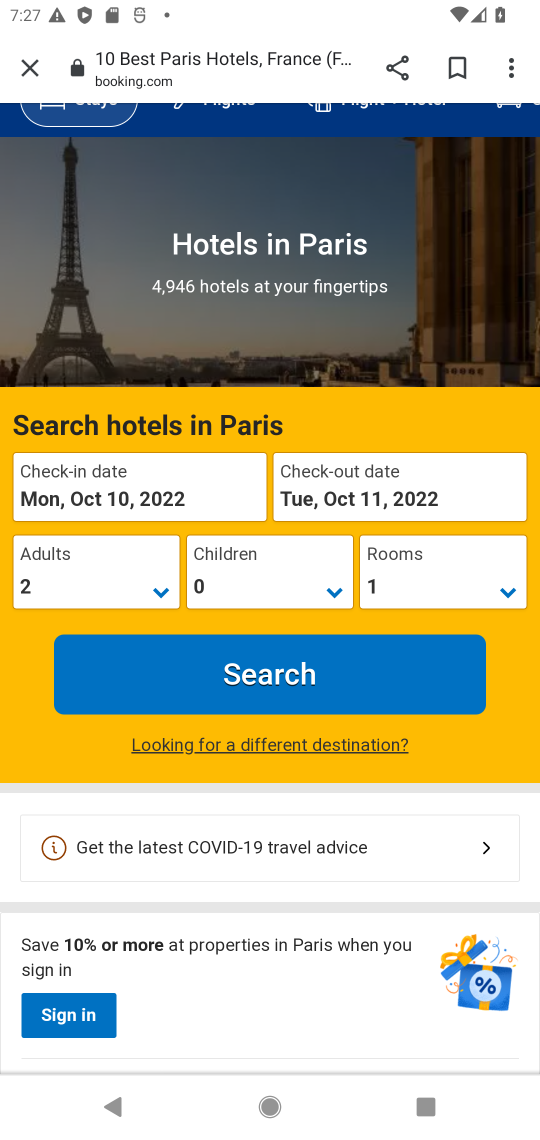
Step 50: click (149, 597)
Your task to perform on an android device: Search for hotels in Paris Image 51: 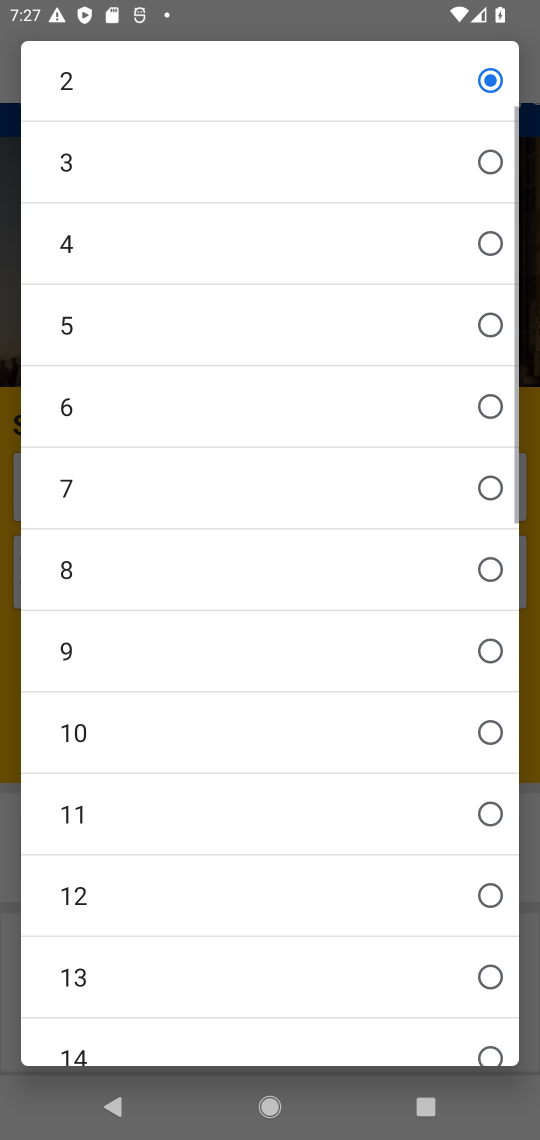
Step 51: click (158, 85)
Your task to perform on an android device: Search for hotels in Paris Image 52: 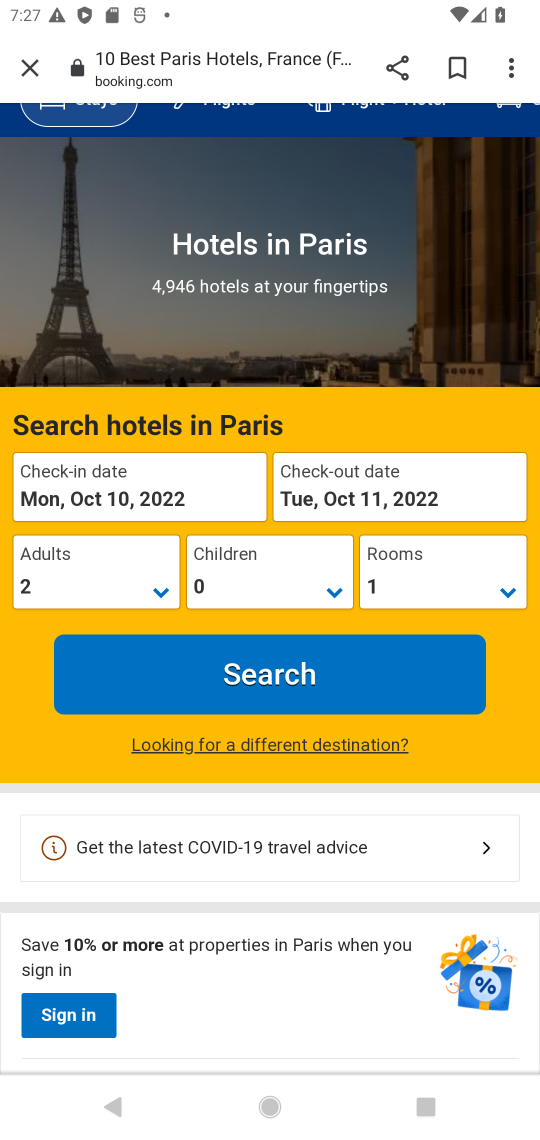
Step 52: click (136, 358)
Your task to perform on an android device: Search for hotels in Paris Image 53: 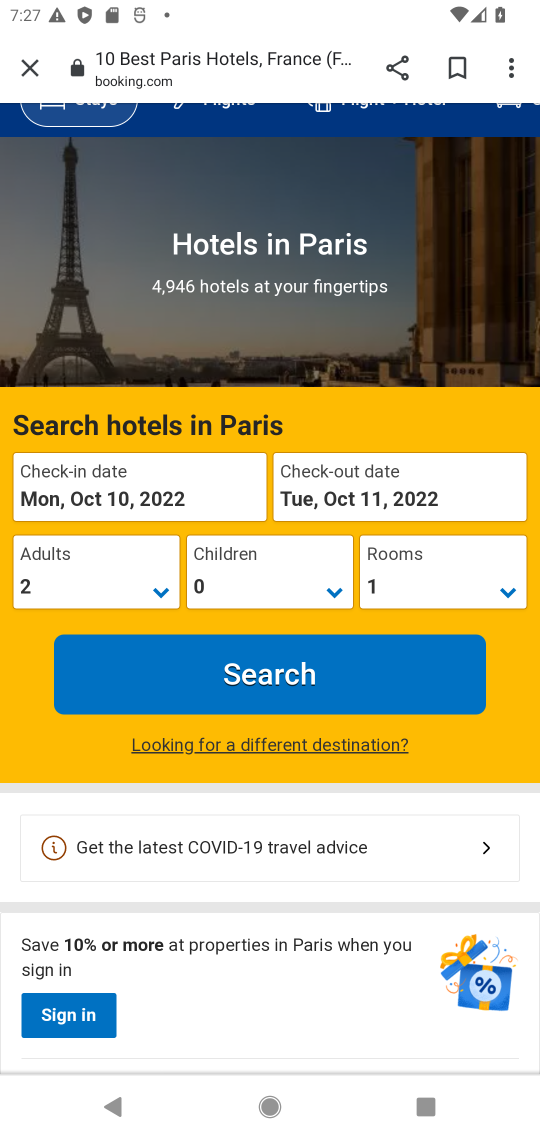
Step 53: click (271, 601)
Your task to perform on an android device: Search for hotels in Paris Image 54: 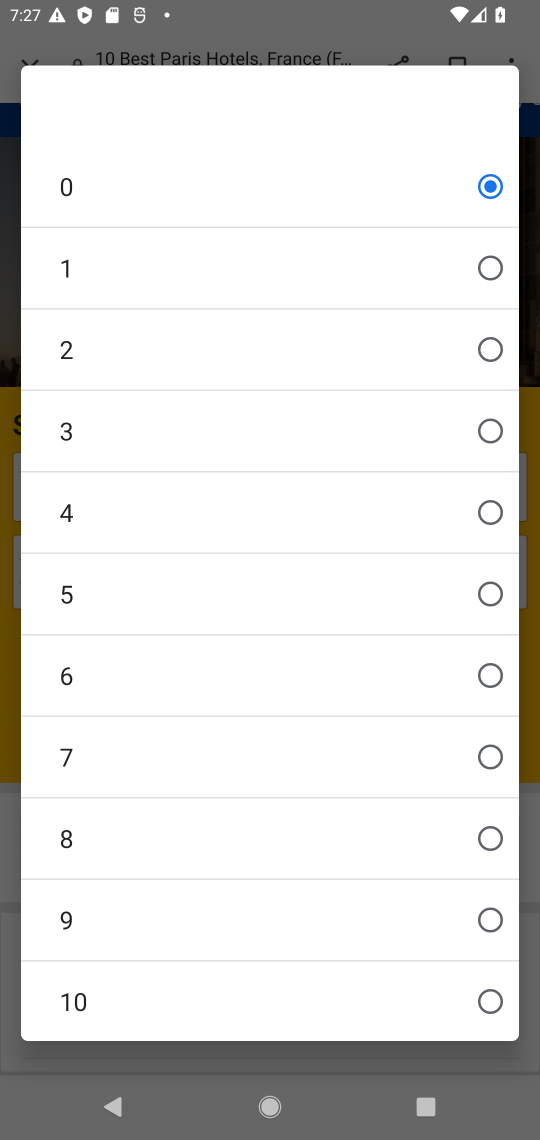
Step 54: click (171, 267)
Your task to perform on an android device: Search for hotels in Paris Image 55: 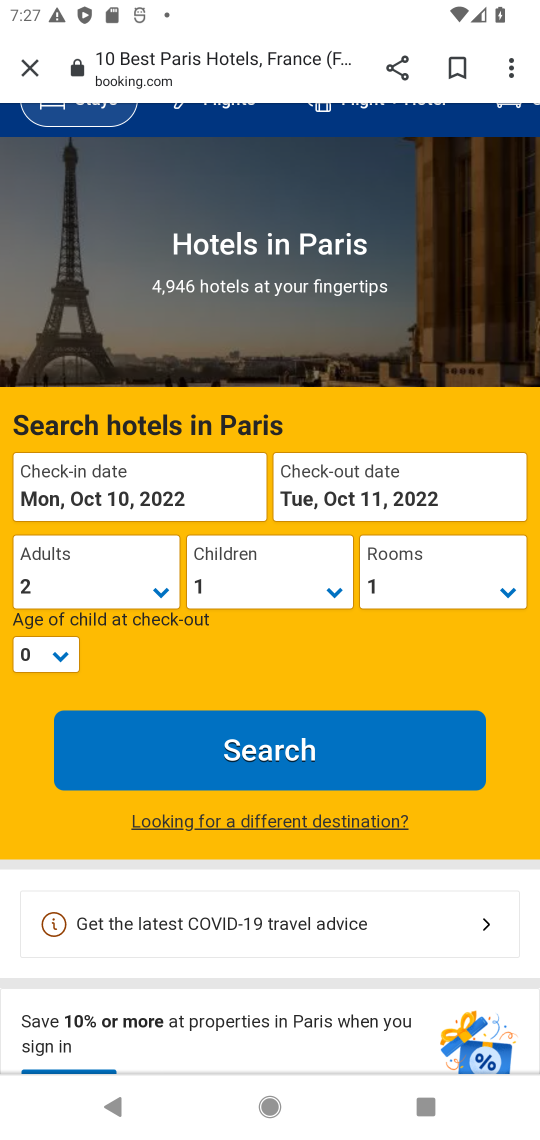
Step 55: click (432, 571)
Your task to perform on an android device: Search for hotels in Paris Image 56: 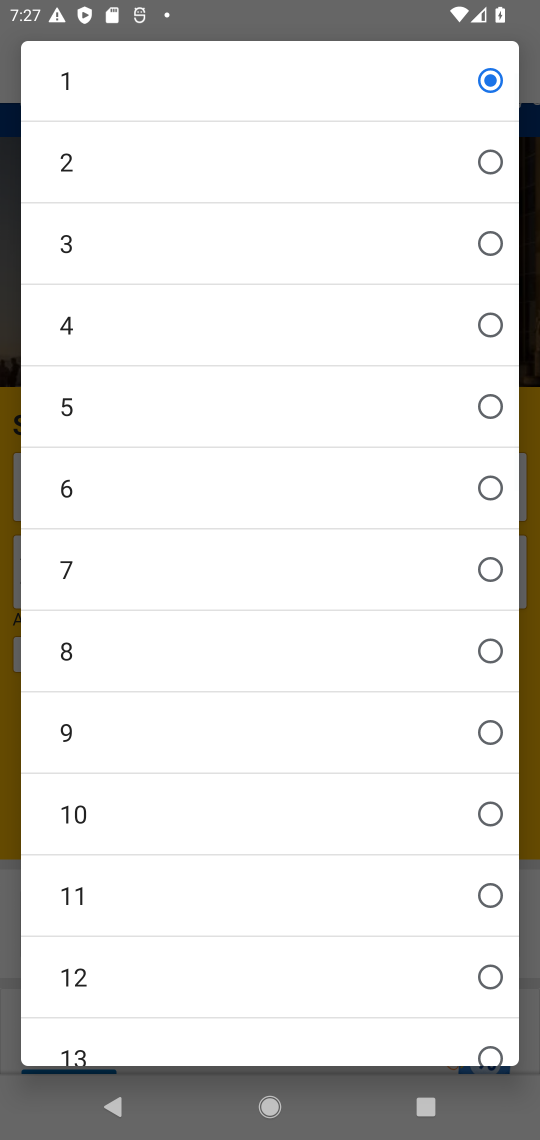
Step 56: click (369, 162)
Your task to perform on an android device: Search for hotels in Paris Image 57: 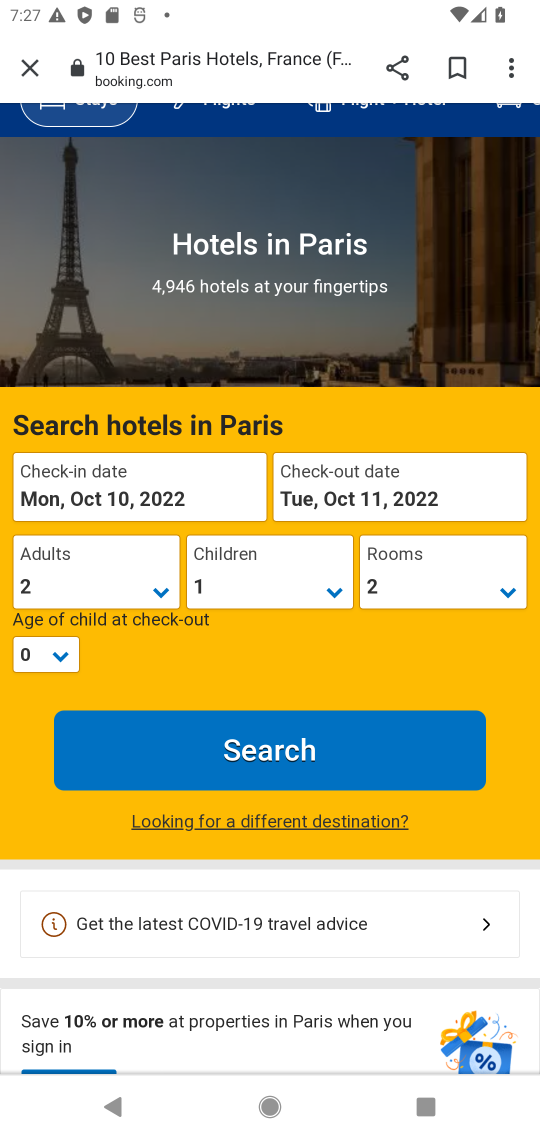
Step 57: click (285, 743)
Your task to perform on an android device: Search for hotels in Paris Image 58: 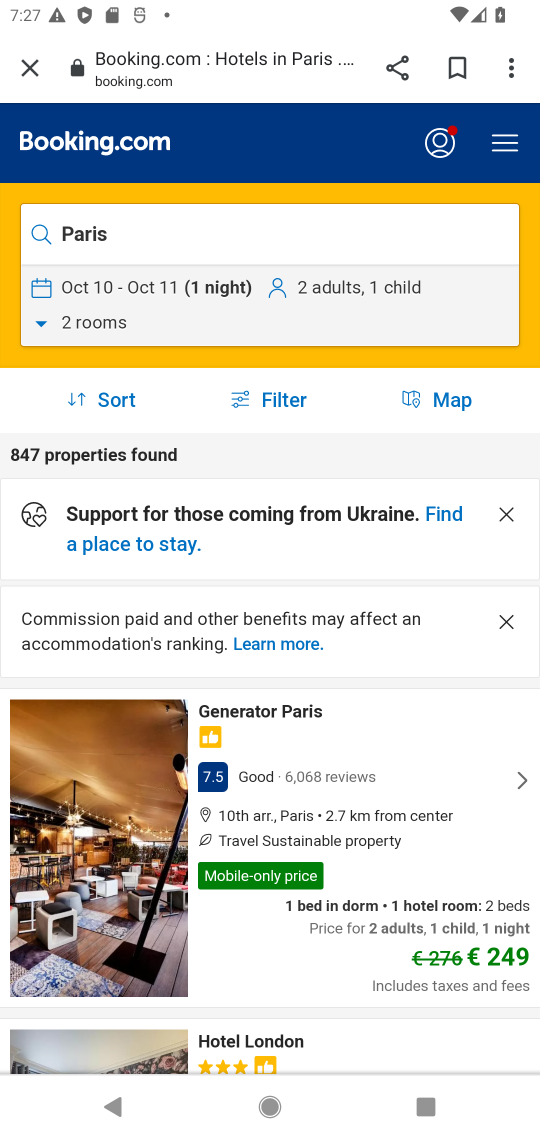
Step 58: task complete